Your task to perform on an android device: What's the latest news in astronomy? Image 0: 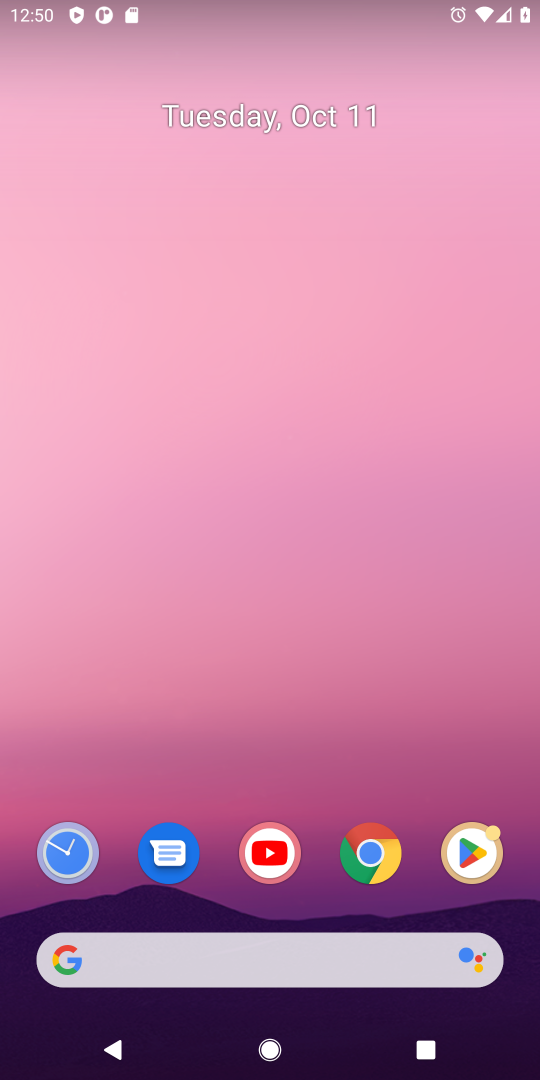
Step 0: drag from (240, 694) to (221, 15)
Your task to perform on an android device: What's the latest news in astronomy? Image 1: 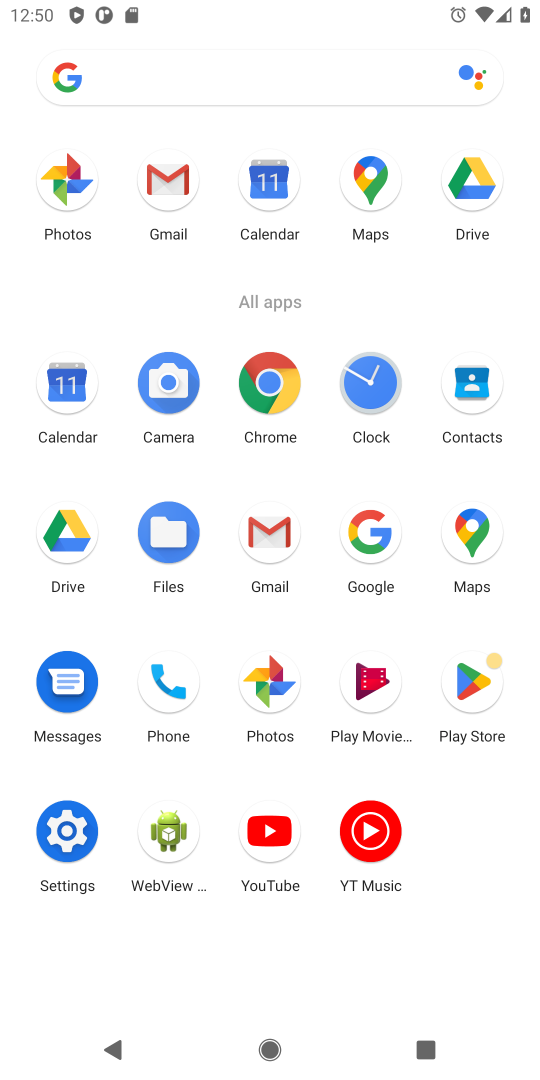
Step 1: click (263, 404)
Your task to perform on an android device: What's the latest news in astronomy? Image 2: 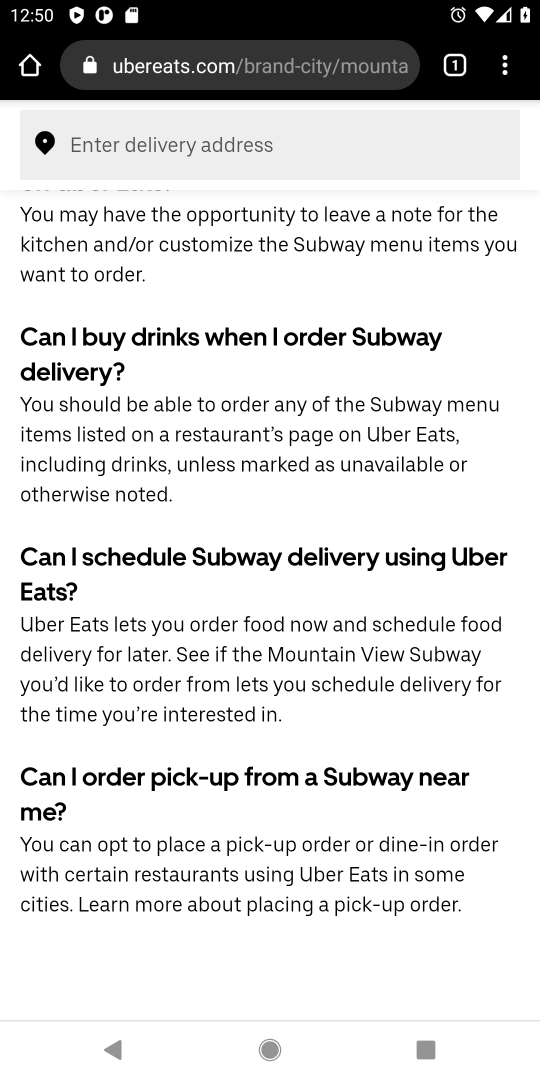
Step 2: click (230, 49)
Your task to perform on an android device: What's the latest news in astronomy? Image 3: 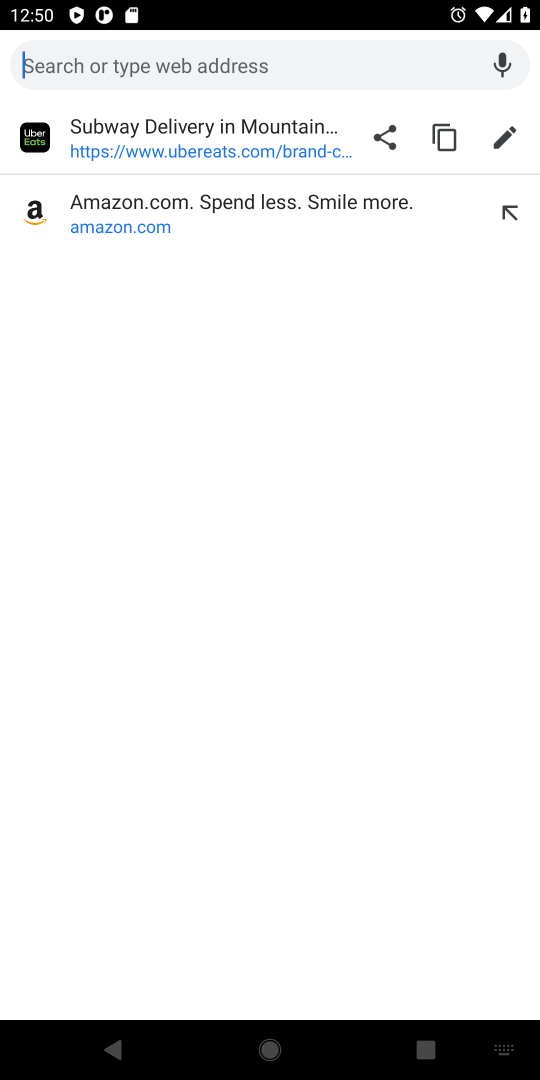
Step 3: type "What's the latest news in astronomy?"
Your task to perform on an android device: What's the latest news in astronomy? Image 4: 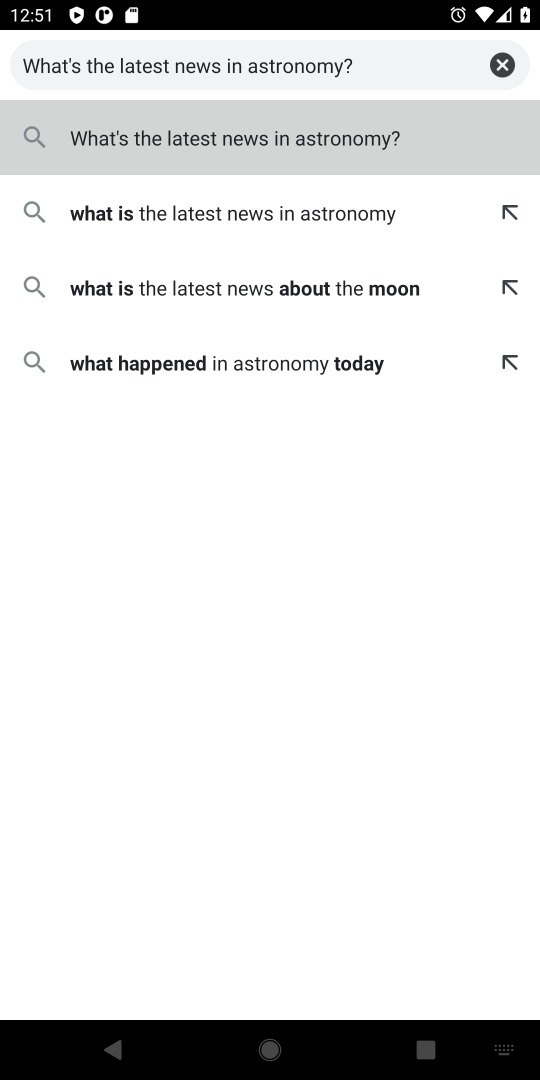
Step 4: type ""
Your task to perform on an android device: What's the latest news in astronomy? Image 5: 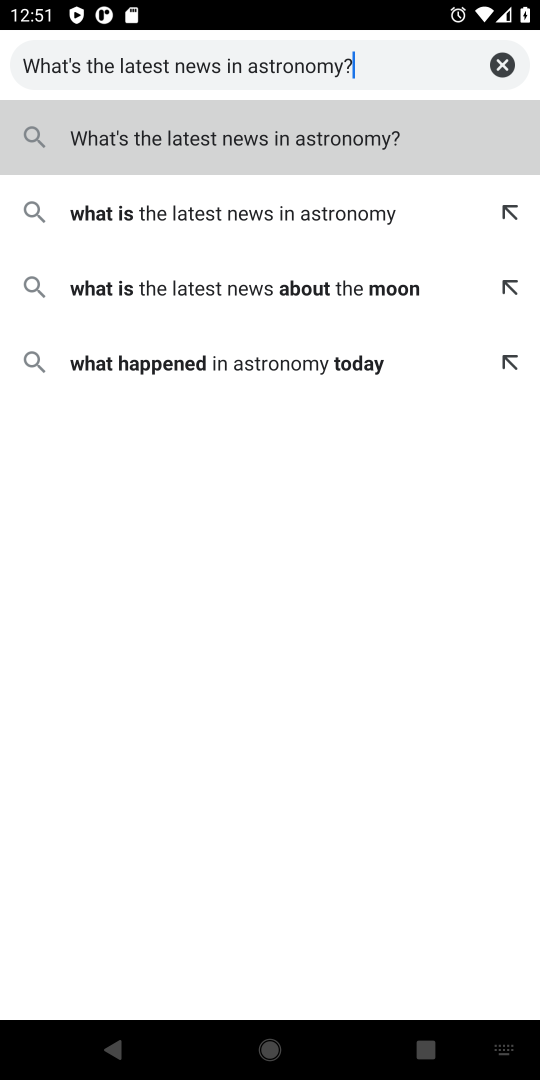
Step 5: press enter
Your task to perform on an android device: What's the latest news in astronomy? Image 6: 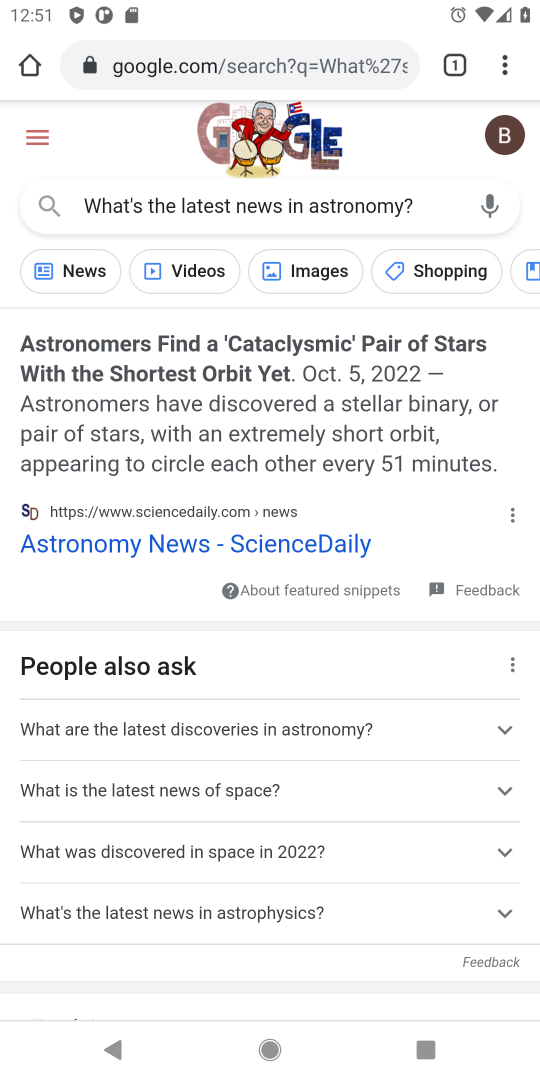
Step 6: click (85, 531)
Your task to perform on an android device: What's the latest news in astronomy? Image 7: 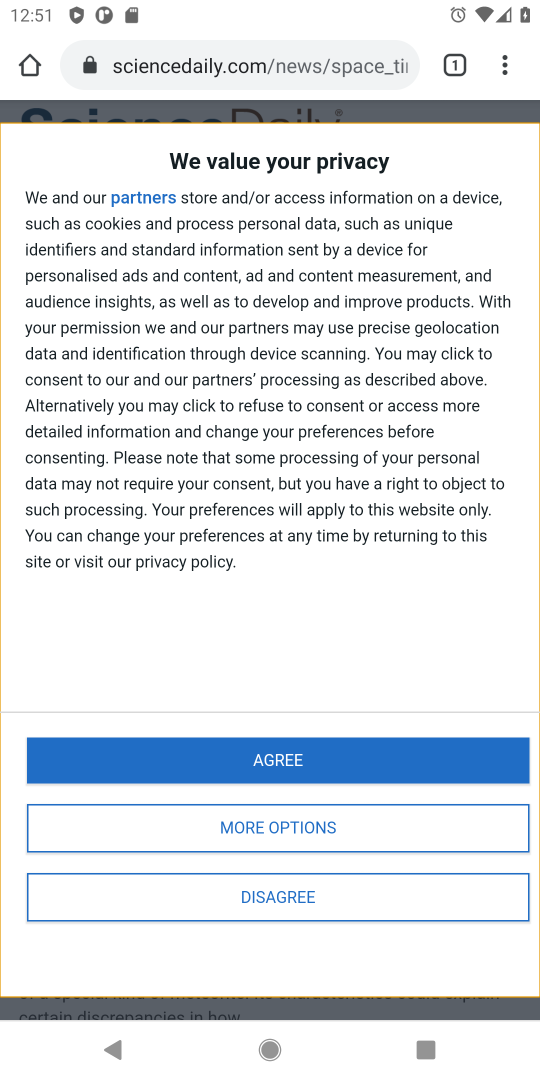
Step 7: drag from (183, 855) to (187, 157)
Your task to perform on an android device: What's the latest news in astronomy? Image 8: 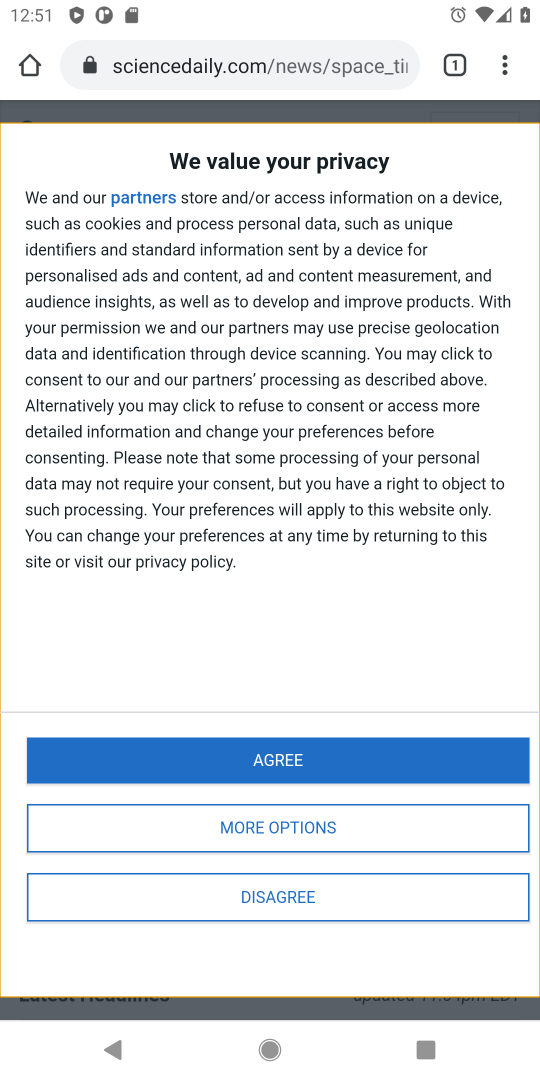
Step 8: click (287, 782)
Your task to perform on an android device: What's the latest news in astronomy? Image 9: 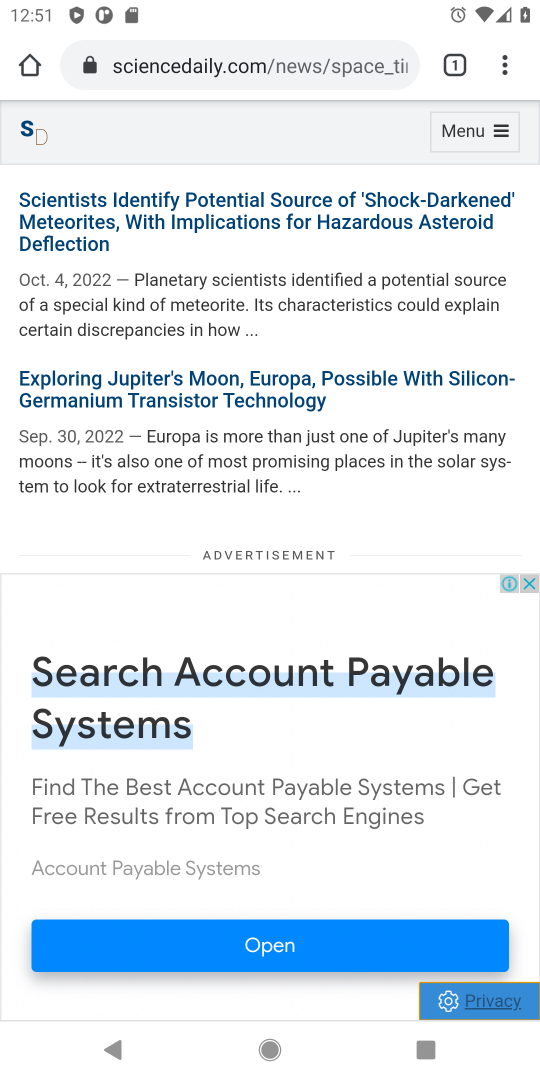
Step 9: drag from (238, 923) to (262, 203)
Your task to perform on an android device: What's the latest news in astronomy? Image 10: 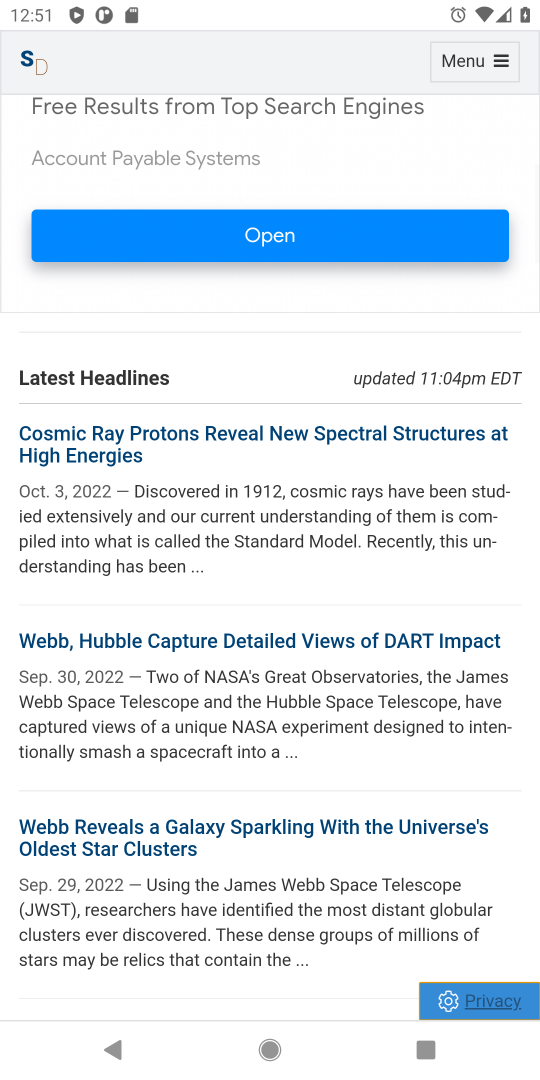
Step 10: drag from (363, 675) to (342, 70)
Your task to perform on an android device: What's the latest news in astronomy? Image 11: 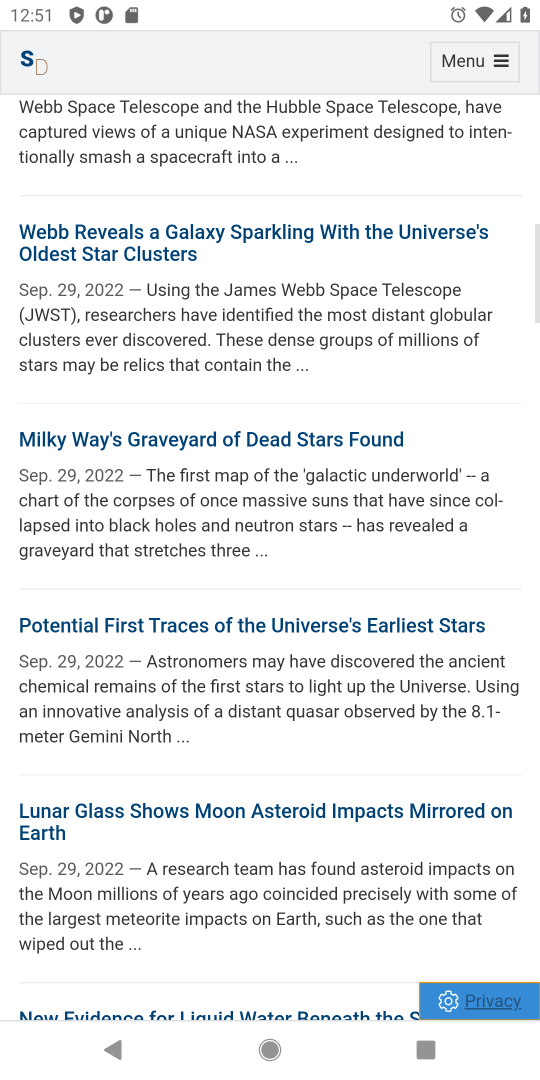
Step 11: drag from (422, 474) to (501, 26)
Your task to perform on an android device: What's the latest news in astronomy? Image 12: 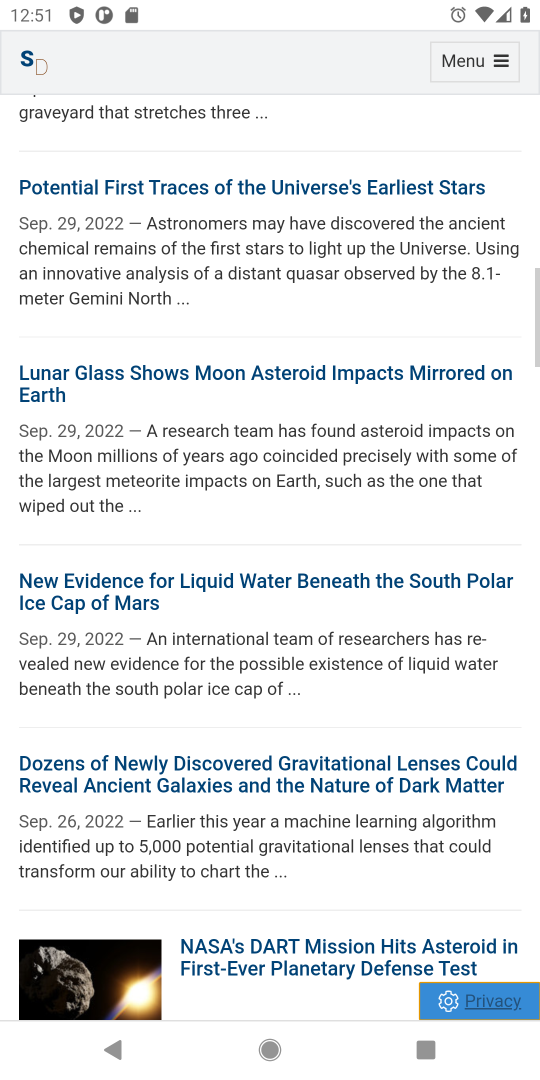
Step 12: drag from (328, 776) to (328, 63)
Your task to perform on an android device: What's the latest news in astronomy? Image 13: 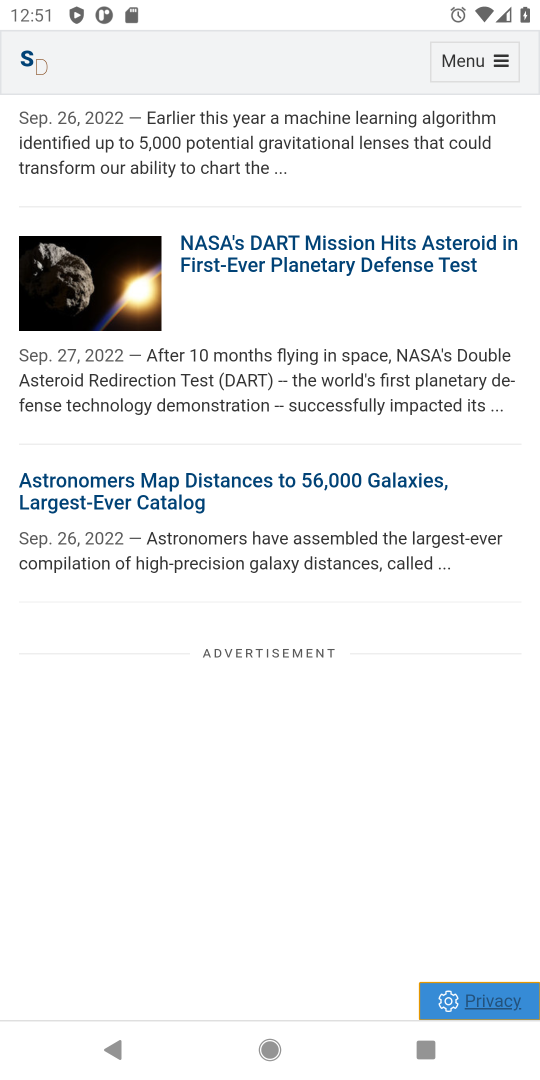
Step 13: drag from (427, 761) to (438, 167)
Your task to perform on an android device: What's the latest news in astronomy? Image 14: 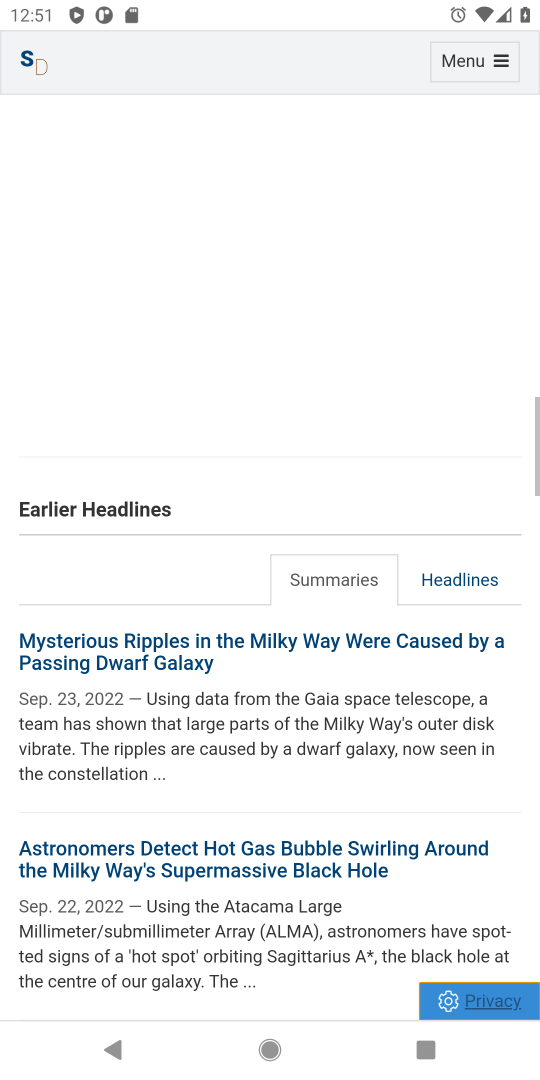
Step 14: drag from (428, 752) to (401, 139)
Your task to perform on an android device: What's the latest news in astronomy? Image 15: 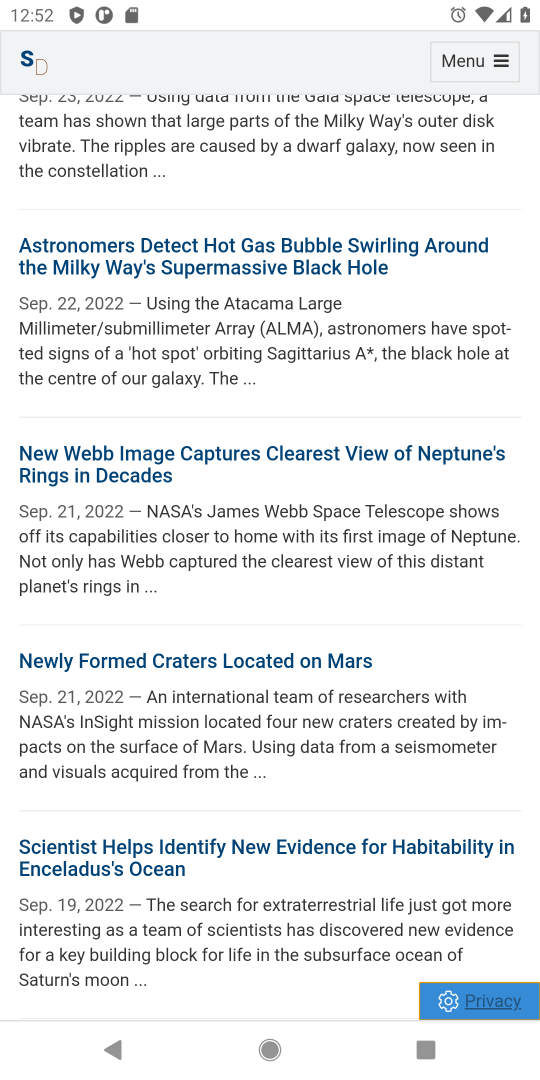
Step 15: drag from (423, 615) to (474, 53)
Your task to perform on an android device: What's the latest news in astronomy? Image 16: 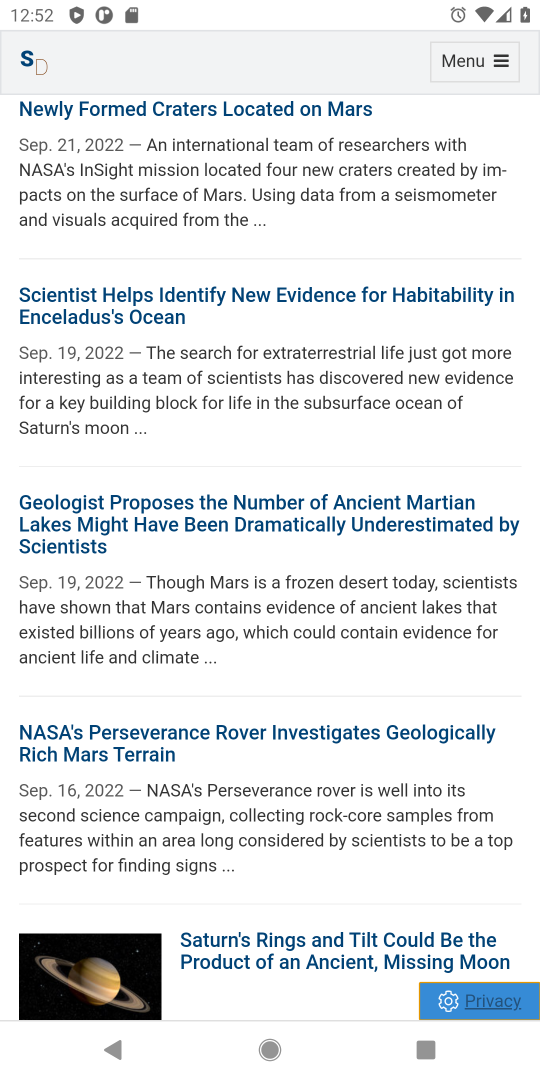
Step 16: drag from (390, 910) to (402, 271)
Your task to perform on an android device: What's the latest news in astronomy? Image 17: 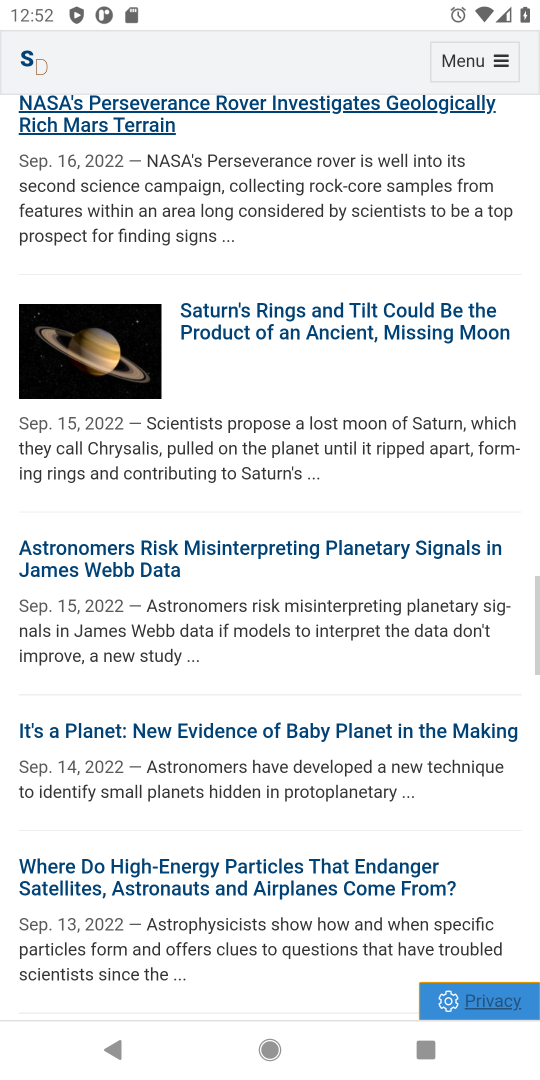
Step 17: drag from (436, 833) to (459, 368)
Your task to perform on an android device: What's the latest news in astronomy? Image 18: 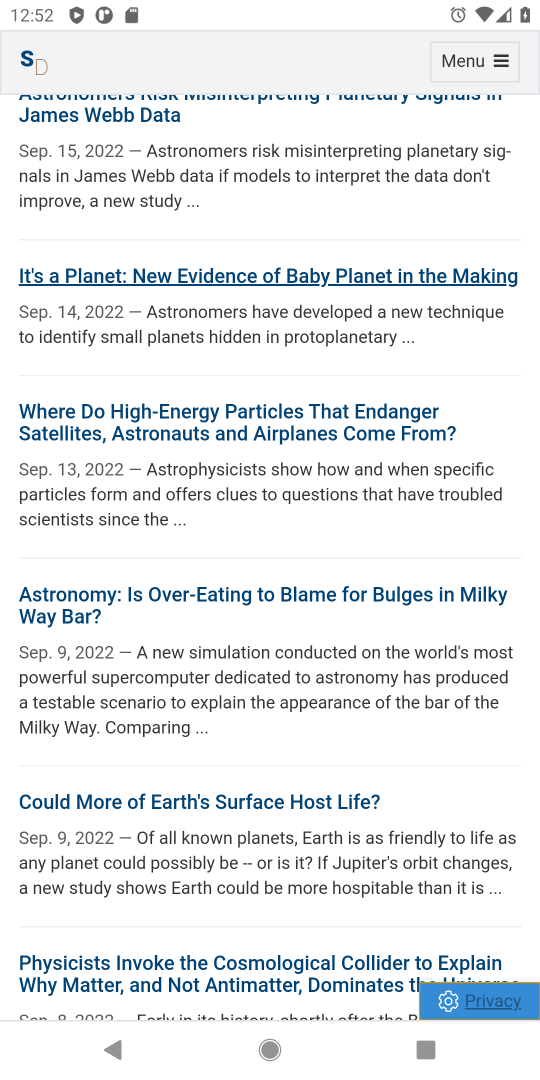
Step 18: drag from (518, 784) to (531, 305)
Your task to perform on an android device: What's the latest news in astronomy? Image 19: 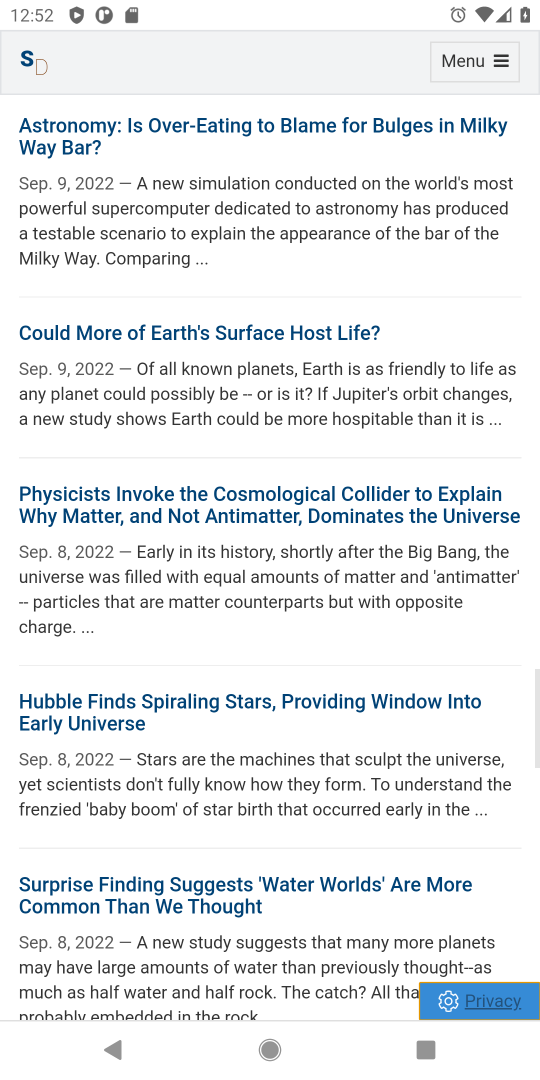
Step 19: drag from (529, 780) to (487, 203)
Your task to perform on an android device: What's the latest news in astronomy? Image 20: 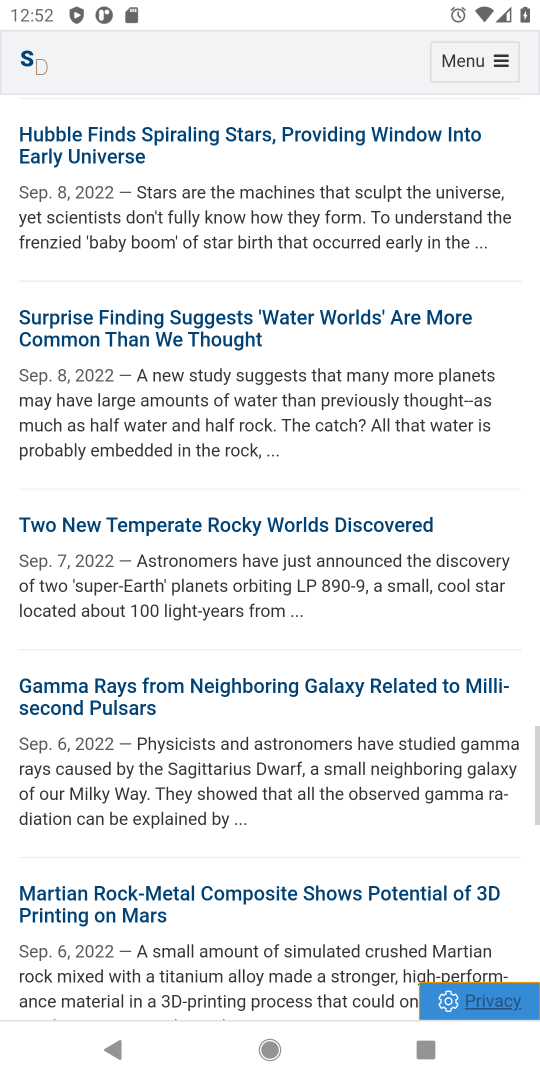
Step 20: drag from (397, 743) to (397, 239)
Your task to perform on an android device: What's the latest news in astronomy? Image 21: 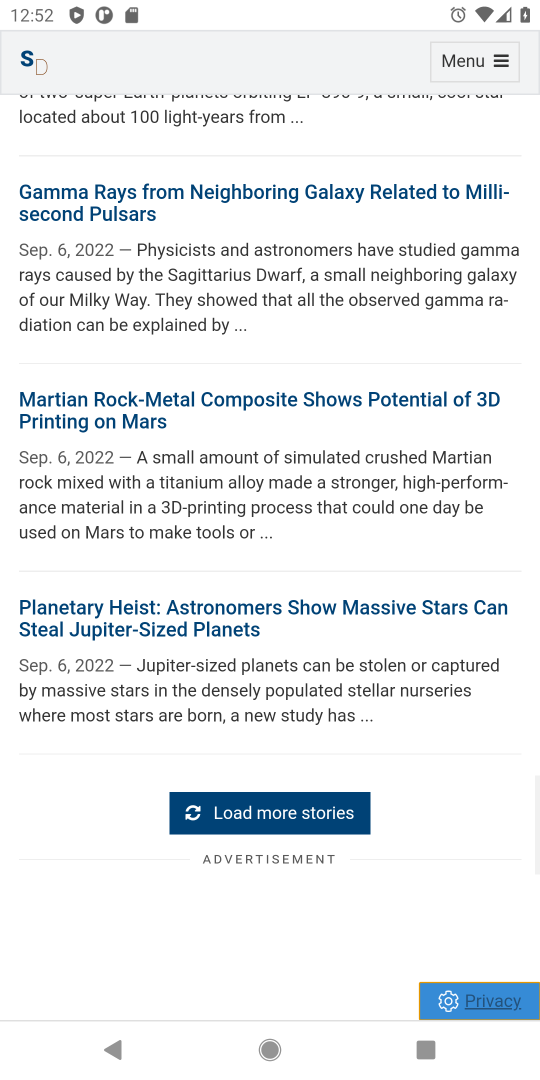
Step 21: drag from (355, 811) to (359, 286)
Your task to perform on an android device: What's the latest news in astronomy? Image 22: 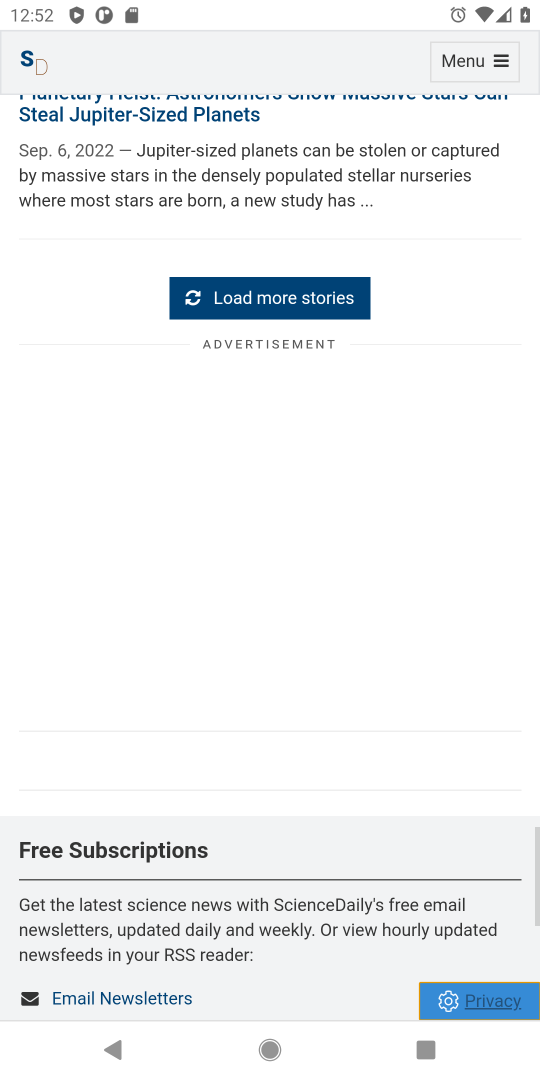
Step 22: drag from (344, 820) to (333, 130)
Your task to perform on an android device: What's the latest news in astronomy? Image 23: 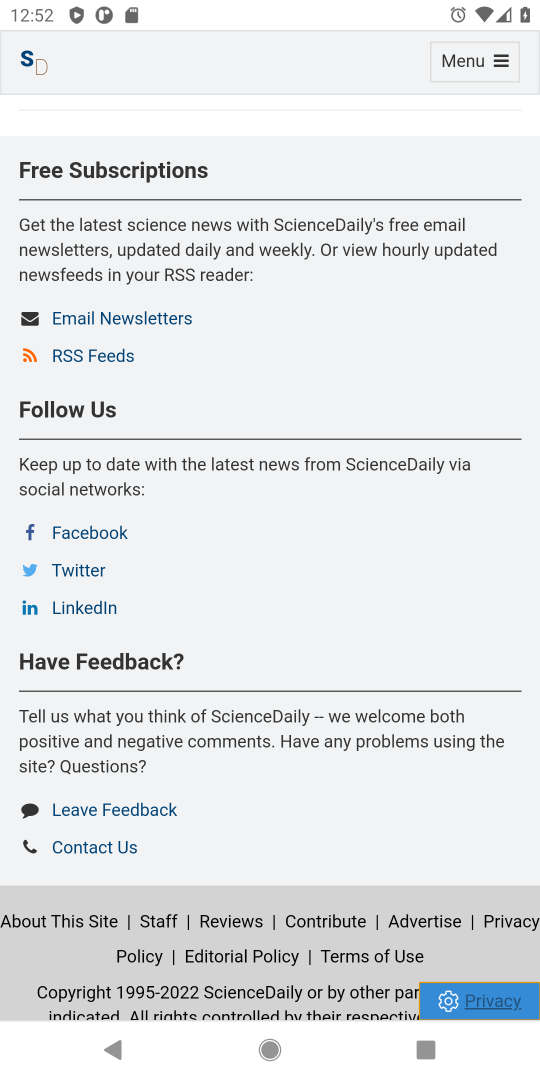
Step 23: drag from (306, 895) to (325, 110)
Your task to perform on an android device: What's the latest news in astronomy? Image 24: 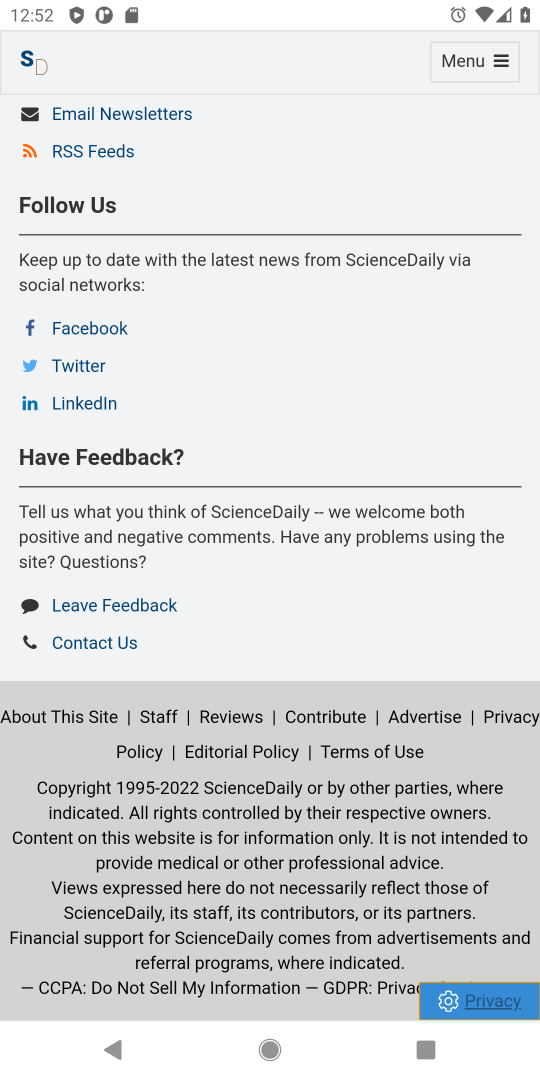
Step 24: drag from (347, 815) to (381, 305)
Your task to perform on an android device: What's the latest news in astronomy? Image 25: 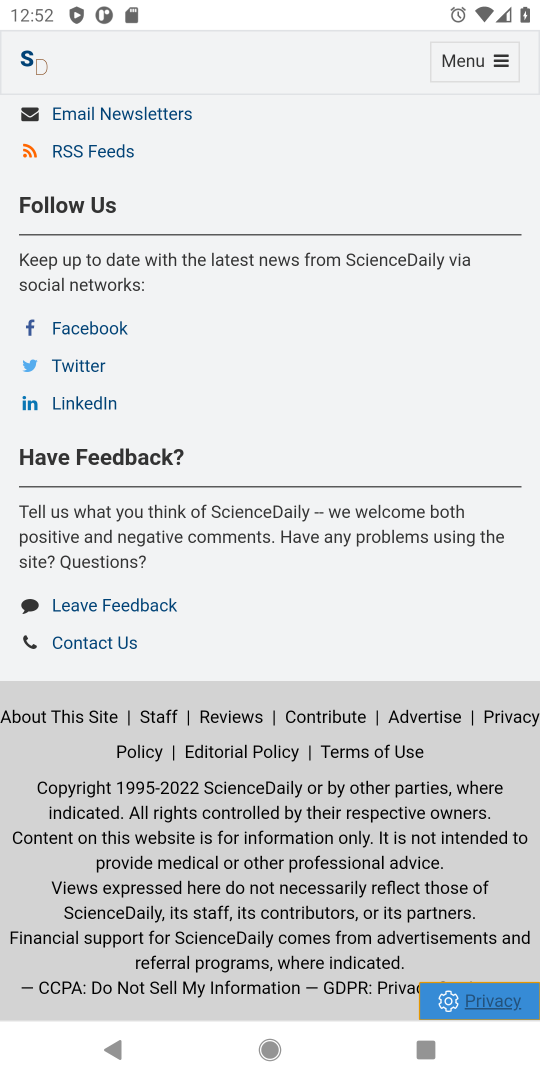
Step 25: press back button
Your task to perform on an android device: What's the latest news in astronomy? Image 26: 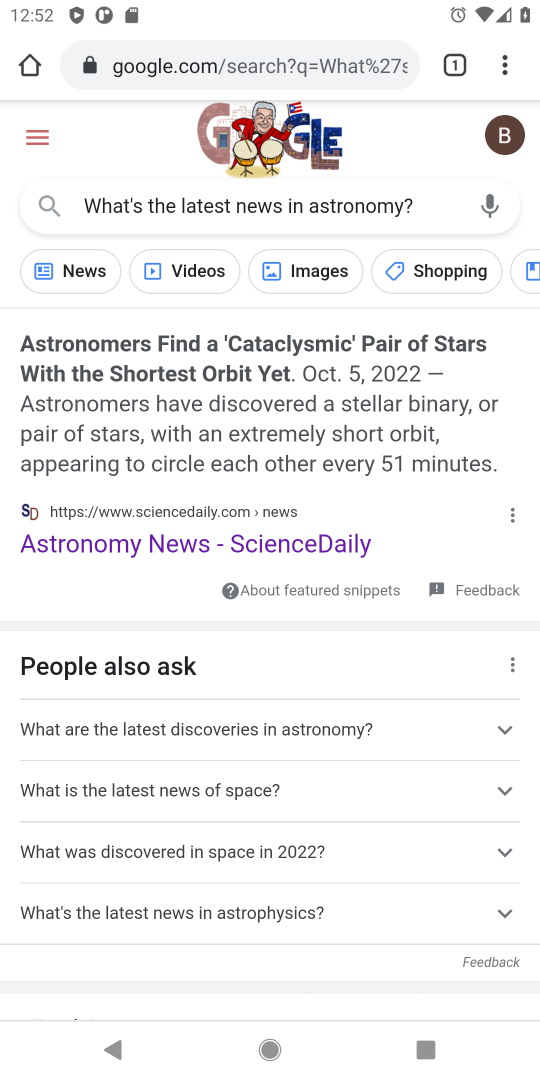
Step 26: drag from (264, 891) to (314, 526)
Your task to perform on an android device: What's the latest news in astronomy? Image 27: 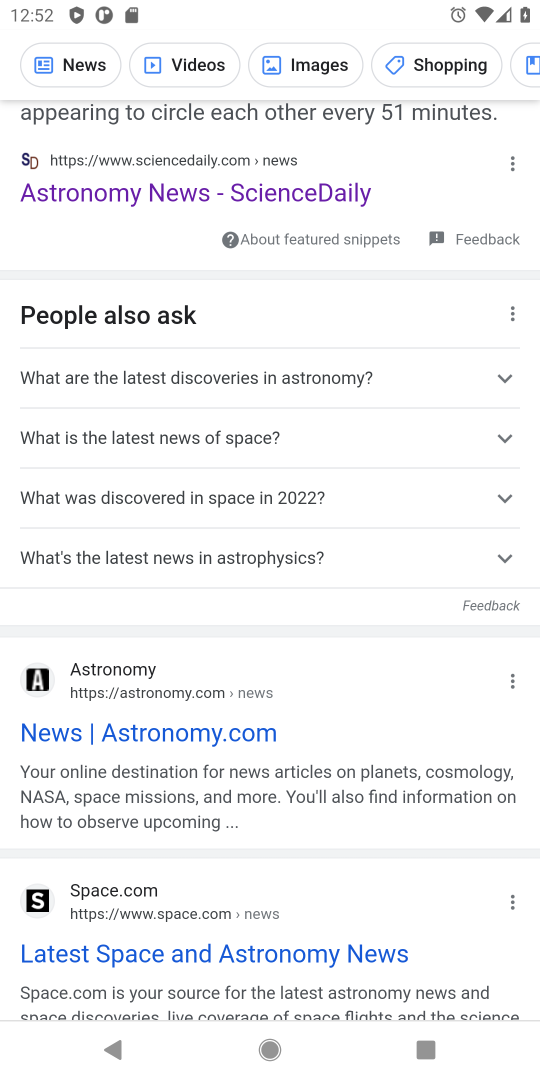
Step 27: click (155, 726)
Your task to perform on an android device: What's the latest news in astronomy? Image 28: 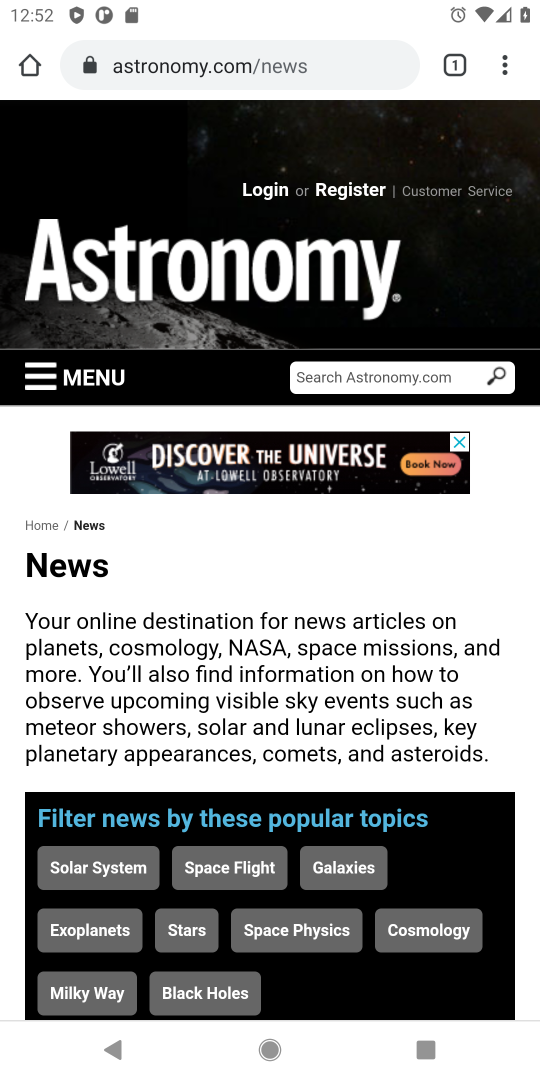
Step 28: drag from (251, 844) to (248, 273)
Your task to perform on an android device: What's the latest news in astronomy? Image 29: 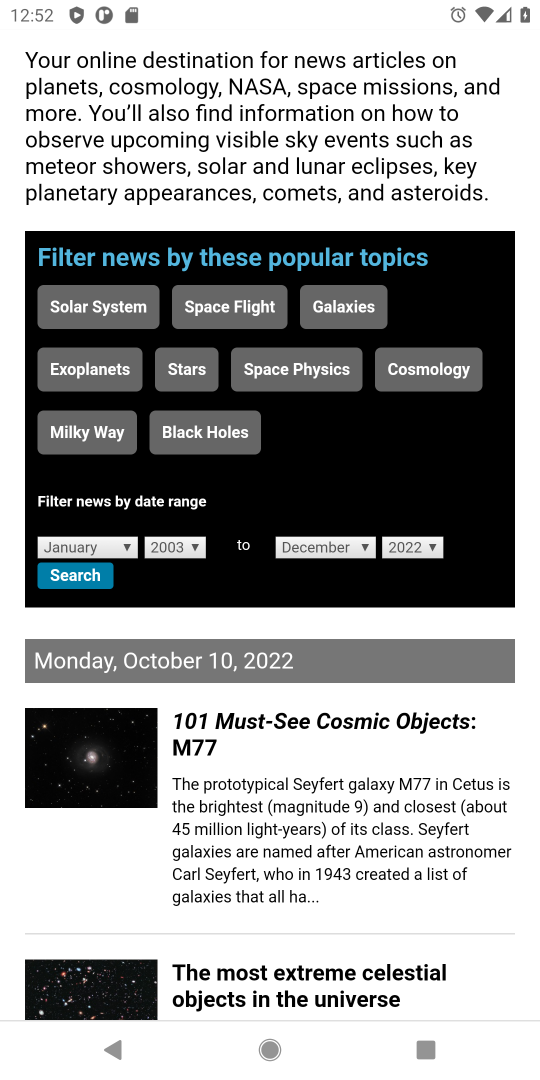
Step 29: drag from (257, 833) to (325, 232)
Your task to perform on an android device: What's the latest news in astronomy? Image 30: 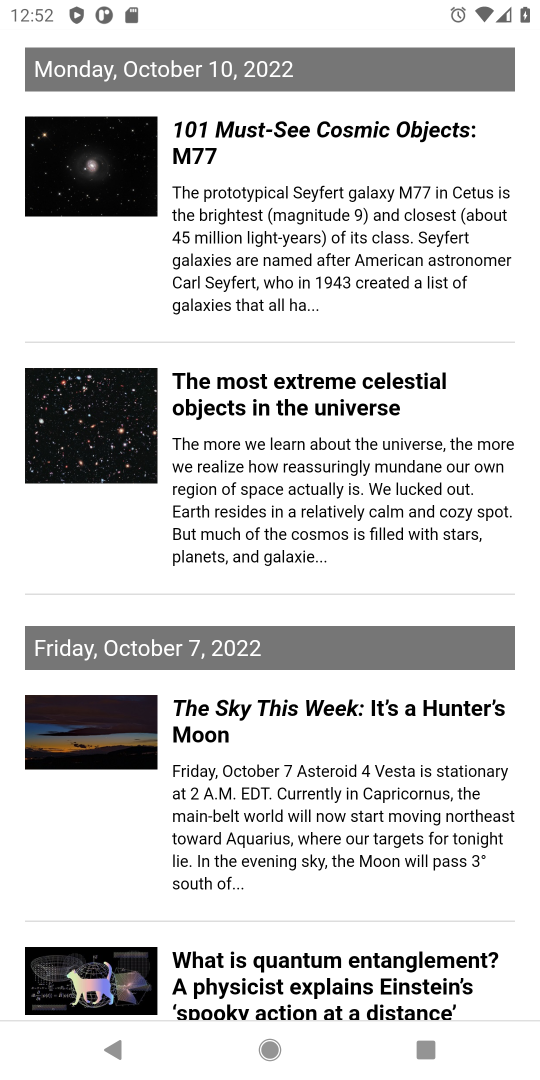
Step 30: drag from (341, 872) to (372, 195)
Your task to perform on an android device: What's the latest news in astronomy? Image 31: 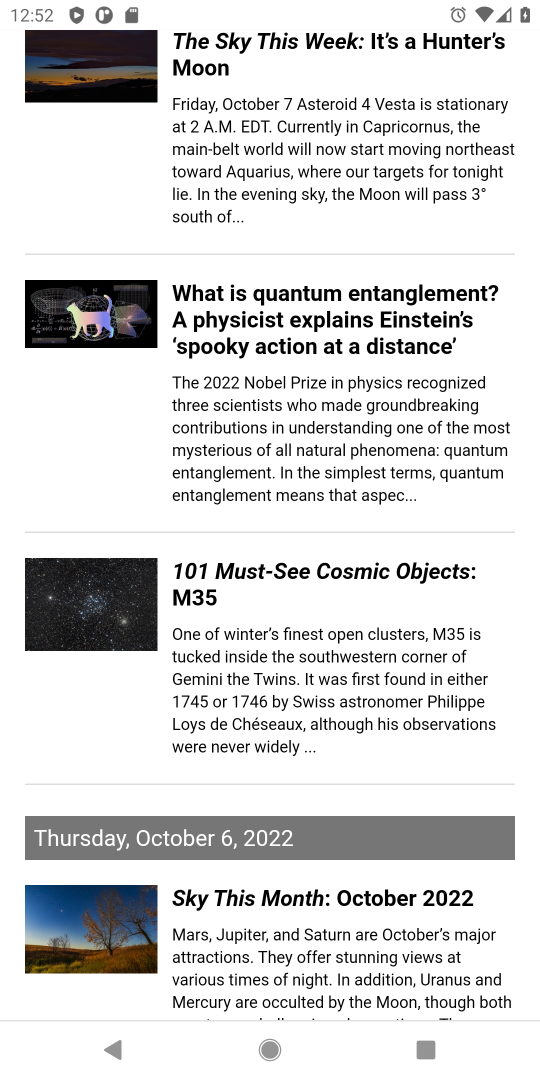
Step 31: drag from (314, 705) to (374, 89)
Your task to perform on an android device: What's the latest news in astronomy? Image 32: 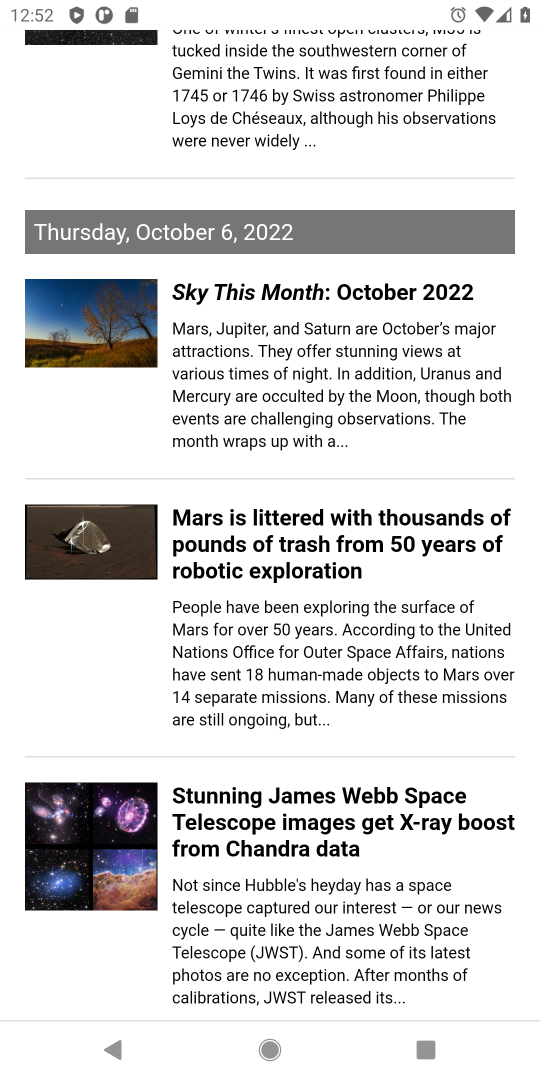
Step 32: drag from (375, 714) to (422, 205)
Your task to perform on an android device: What's the latest news in astronomy? Image 33: 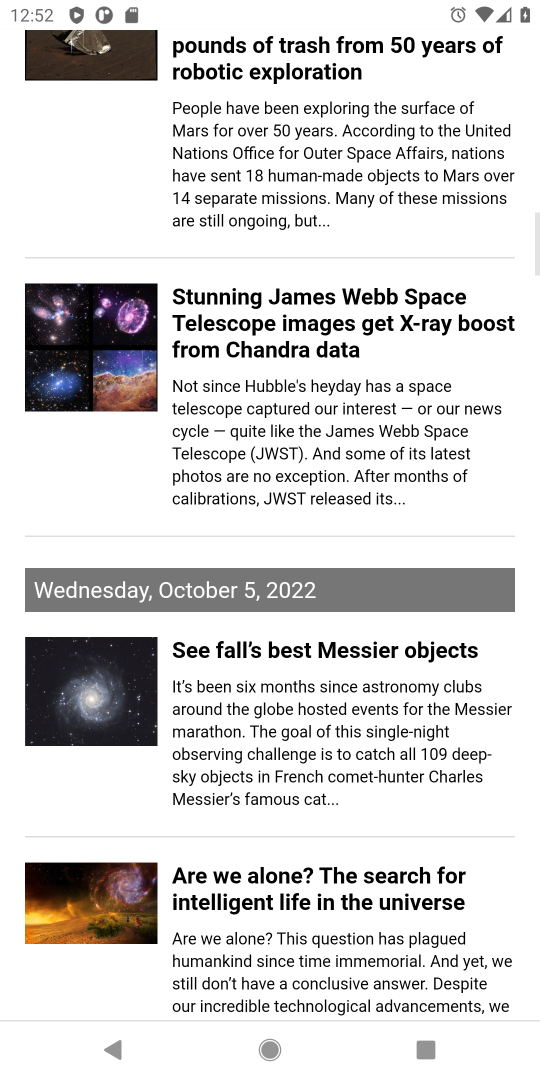
Step 33: drag from (337, 733) to (305, 206)
Your task to perform on an android device: What's the latest news in astronomy? Image 34: 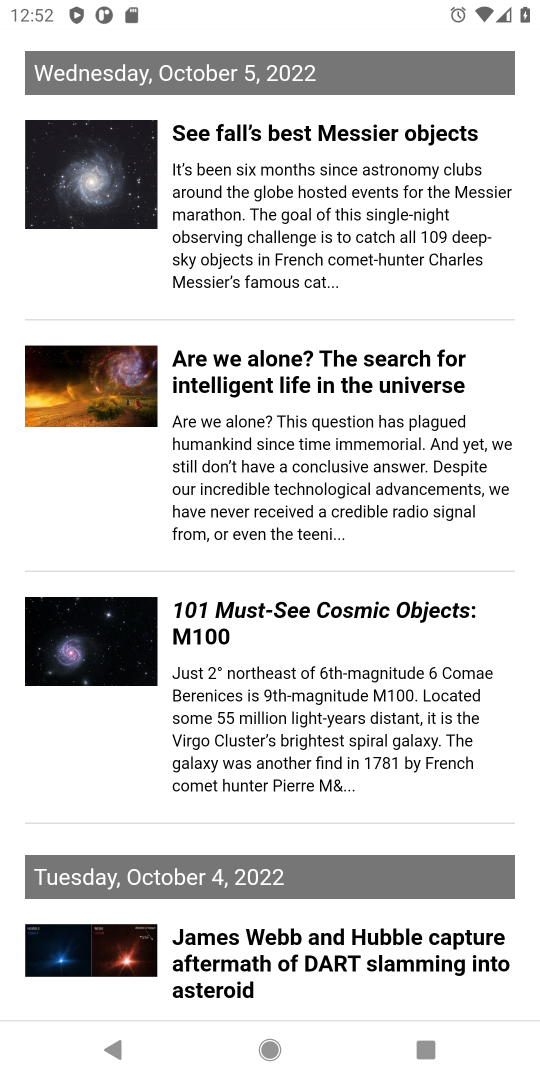
Step 34: drag from (322, 777) to (356, 147)
Your task to perform on an android device: What's the latest news in astronomy? Image 35: 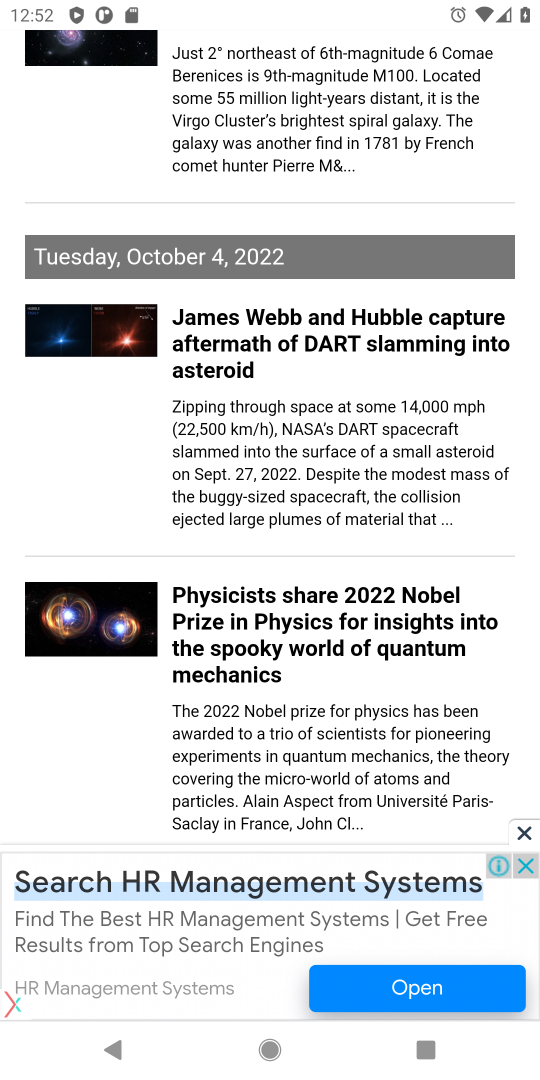
Step 35: drag from (440, 736) to (415, 295)
Your task to perform on an android device: What's the latest news in astronomy? Image 36: 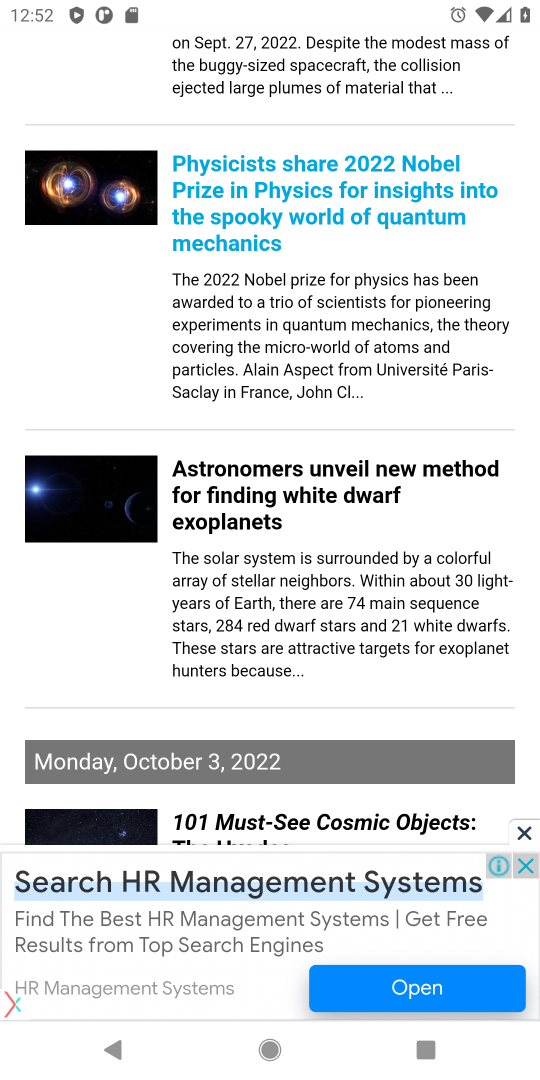
Step 36: drag from (375, 598) to (382, 146)
Your task to perform on an android device: What's the latest news in astronomy? Image 37: 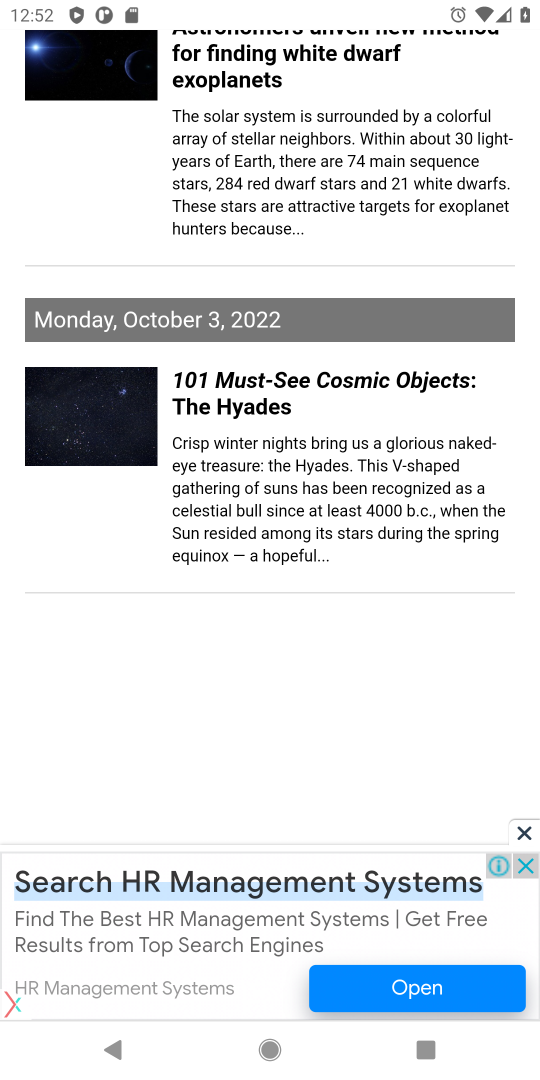
Step 37: drag from (324, 623) to (349, 298)
Your task to perform on an android device: What's the latest news in astronomy? Image 38: 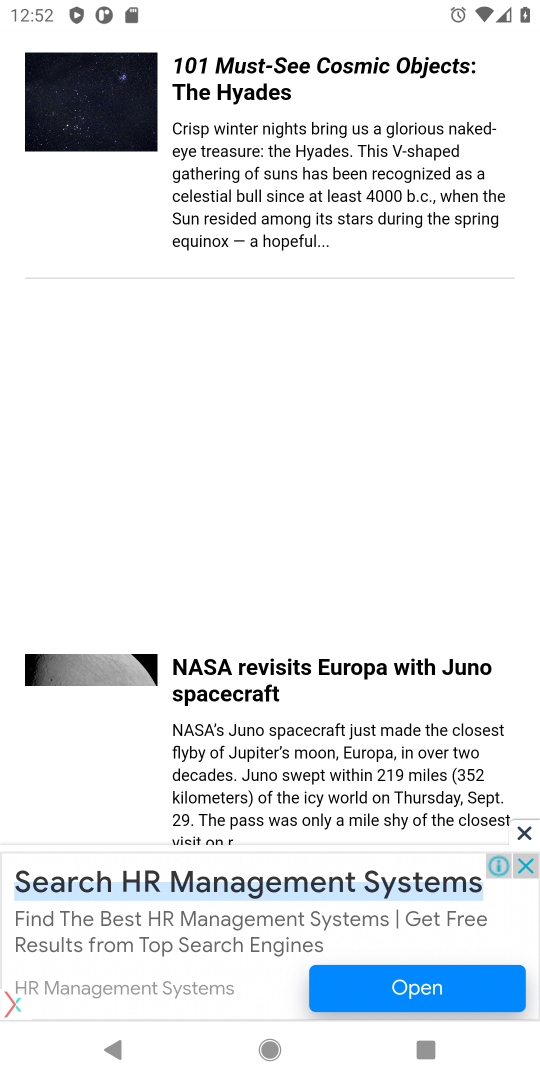
Step 38: press back button
Your task to perform on an android device: What's the latest news in astronomy? Image 39: 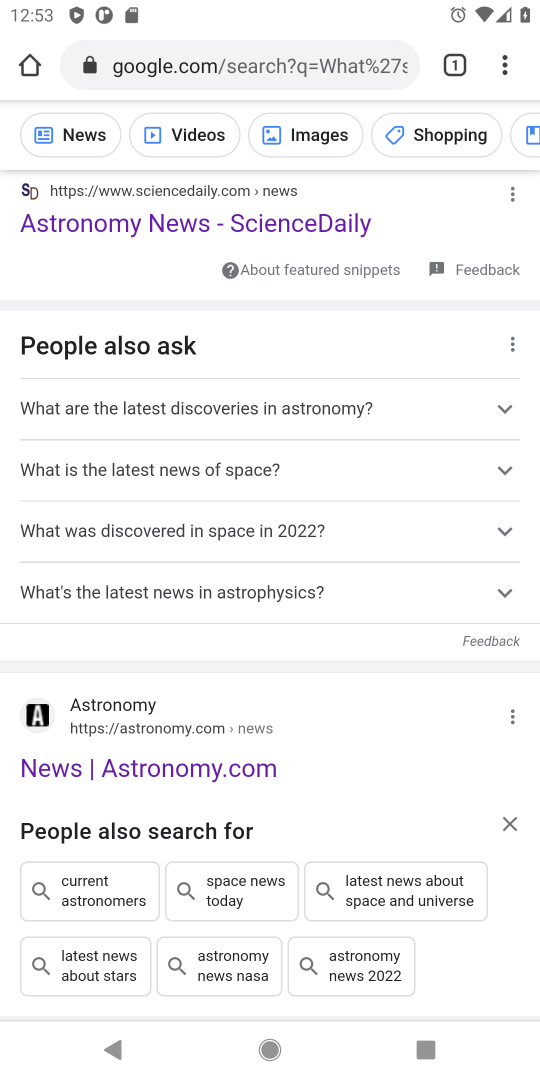
Step 39: drag from (221, 832) to (209, 403)
Your task to perform on an android device: What's the latest news in astronomy? Image 40: 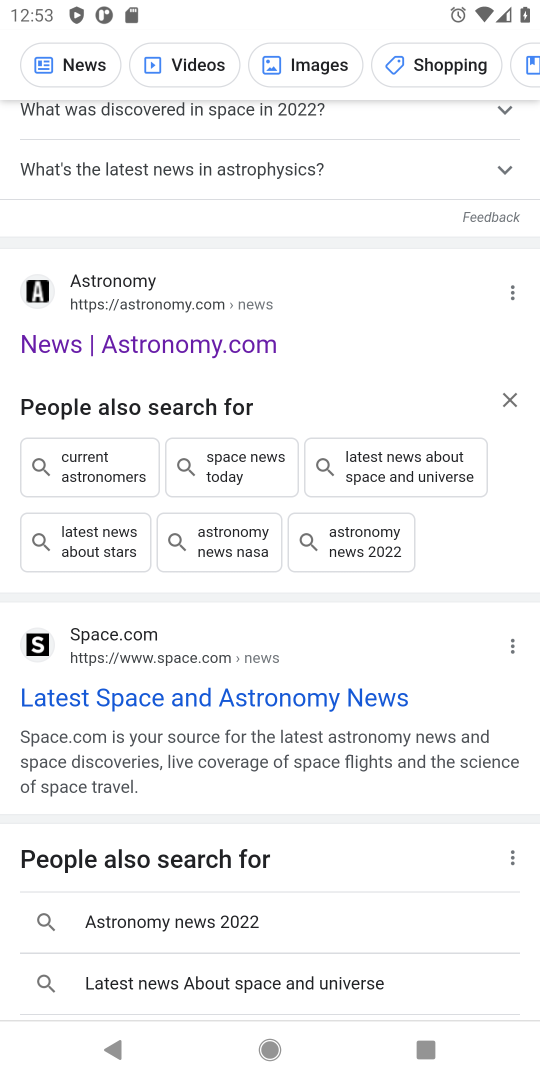
Step 40: click (145, 685)
Your task to perform on an android device: What's the latest news in astronomy? Image 41: 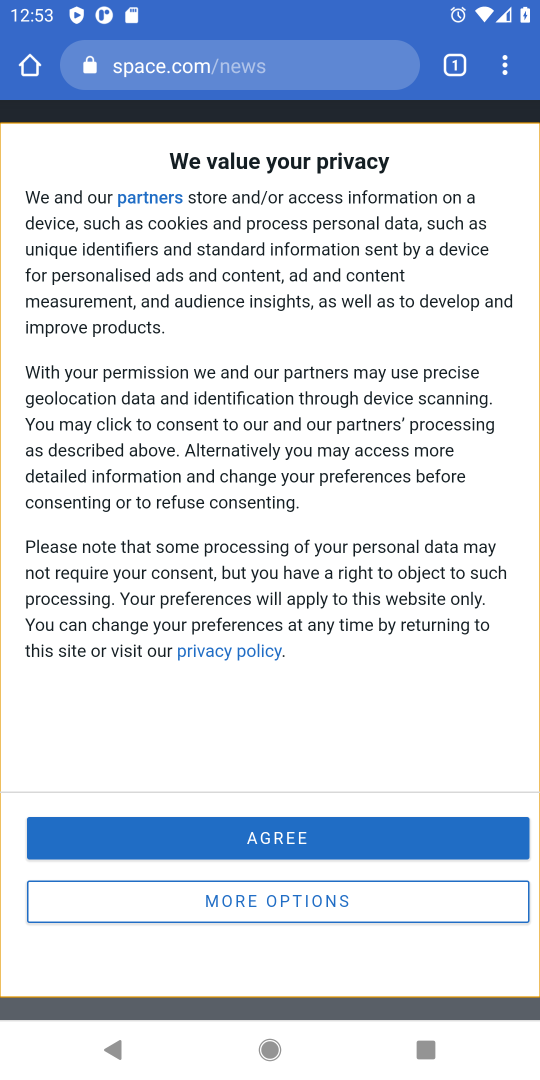
Step 41: click (202, 816)
Your task to perform on an android device: What's the latest news in astronomy? Image 42: 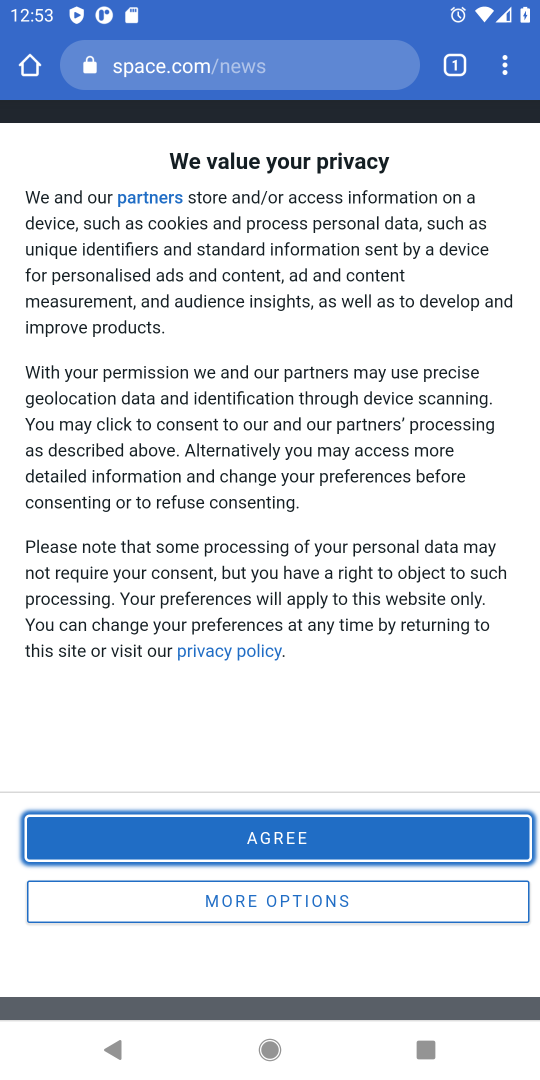
Step 42: click (242, 849)
Your task to perform on an android device: What's the latest news in astronomy? Image 43: 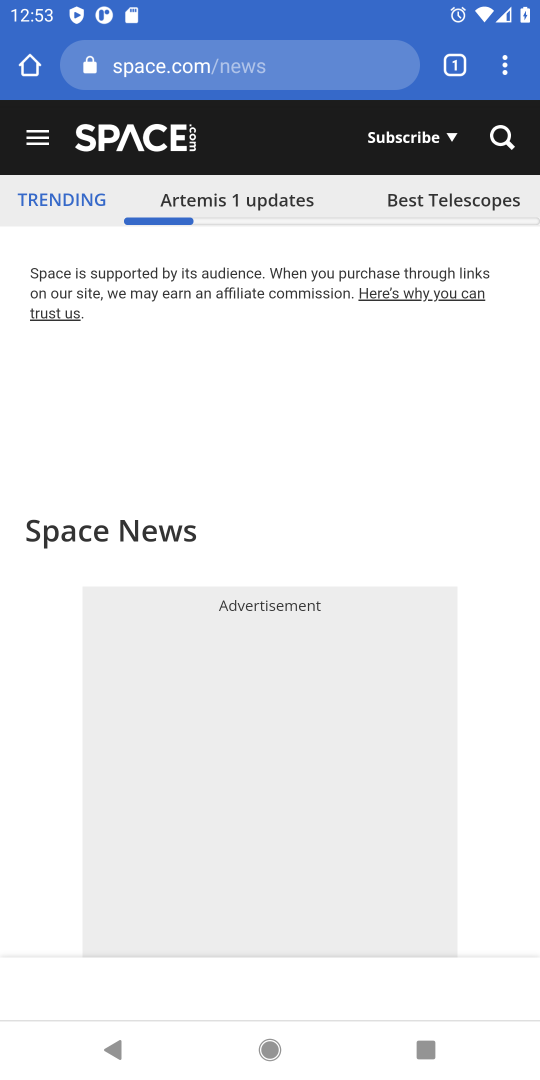
Step 43: drag from (242, 849) to (270, 223)
Your task to perform on an android device: What's the latest news in astronomy? Image 44: 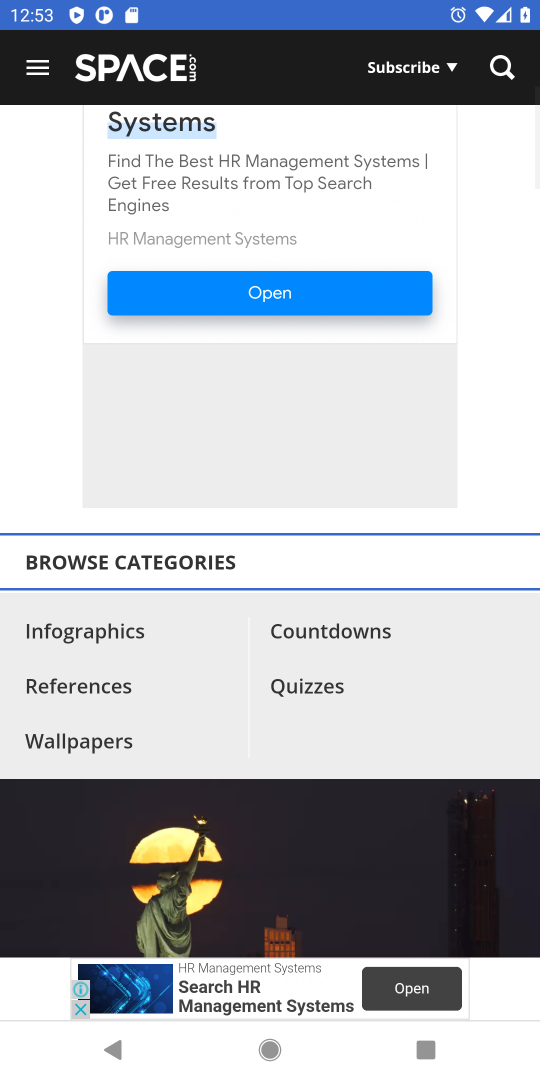
Step 44: drag from (293, 761) to (336, 145)
Your task to perform on an android device: What's the latest news in astronomy? Image 45: 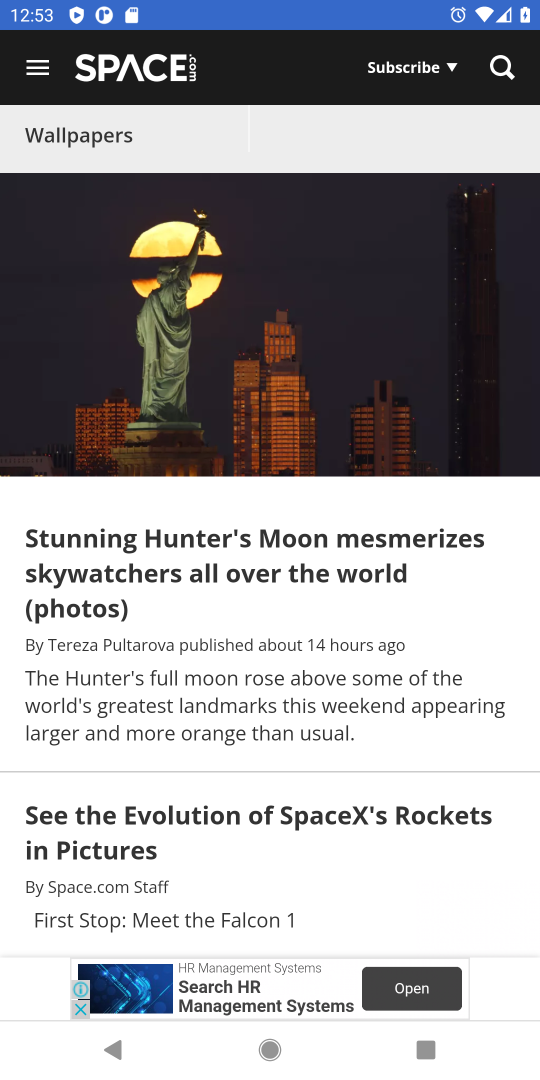
Step 45: drag from (237, 818) to (299, 359)
Your task to perform on an android device: What's the latest news in astronomy? Image 46: 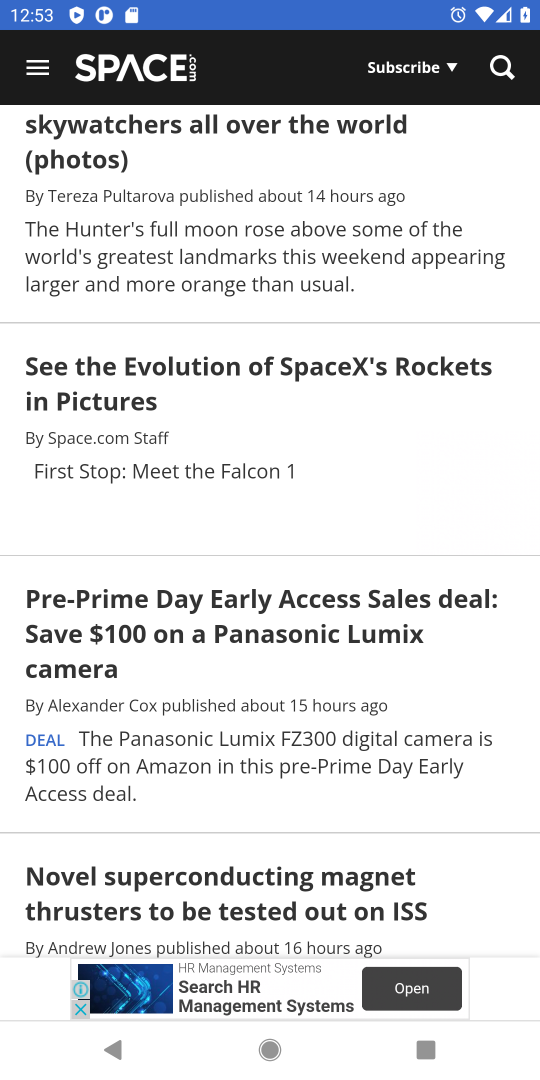
Step 46: drag from (290, 756) to (300, 279)
Your task to perform on an android device: What's the latest news in astronomy? Image 47: 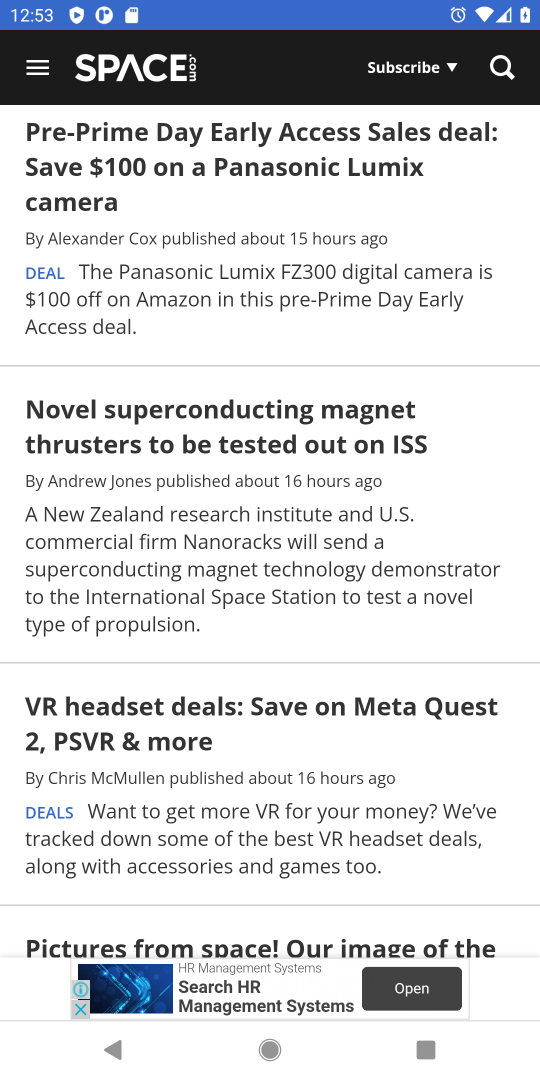
Step 47: drag from (276, 779) to (276, 234)
Your task to perform on an android device: What's the latest news in astronomy? Image 48: 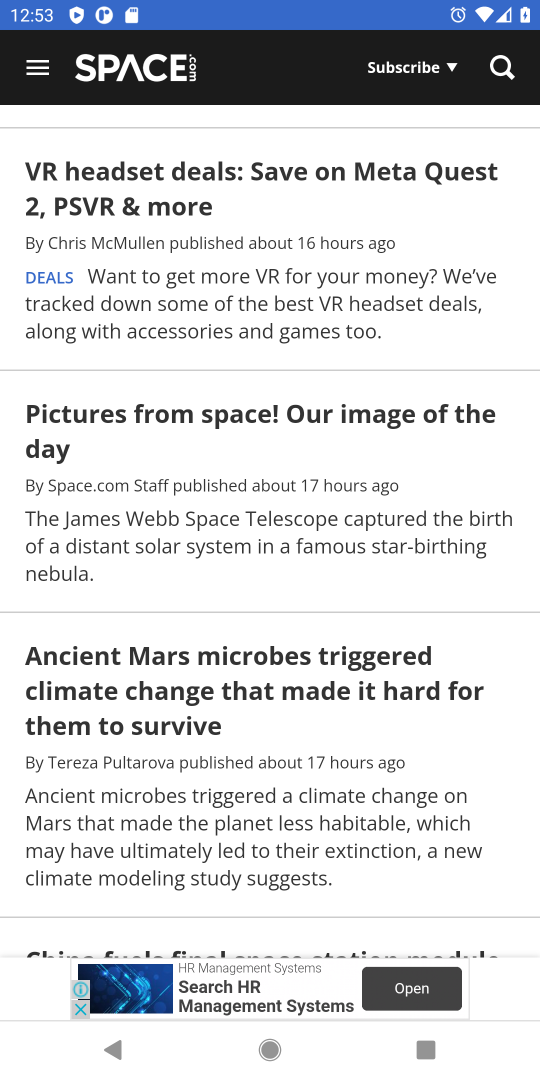
Step 48: drag from (256, 837) to (296, 218)
Your task to perform on an android device: What's the latest news in astronomy? Image 49: 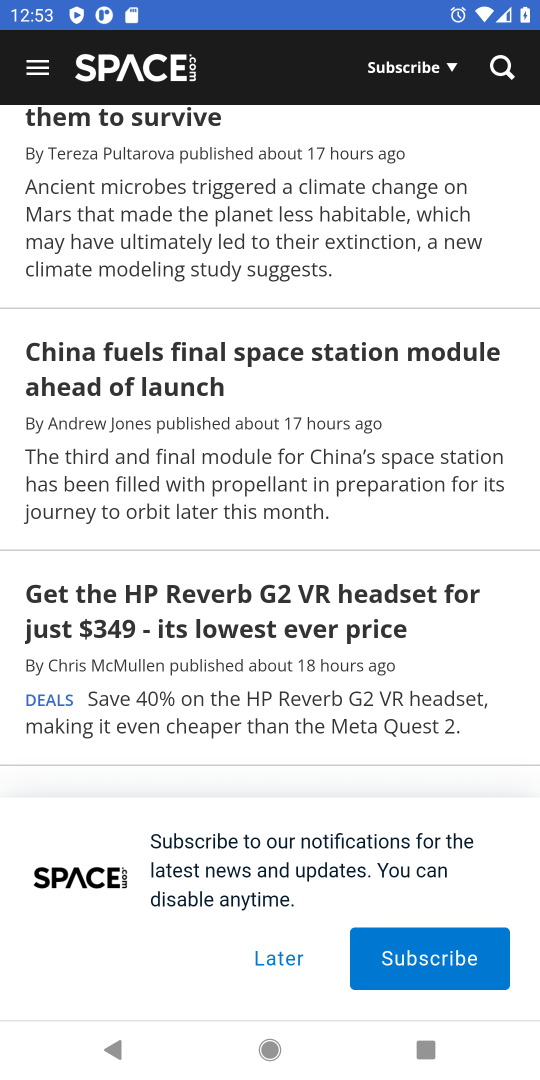
Step 49: drag from (262, 910) to (254, 306)
Your task to perform on an android device: What's the latest news in astronomy? Image 50: 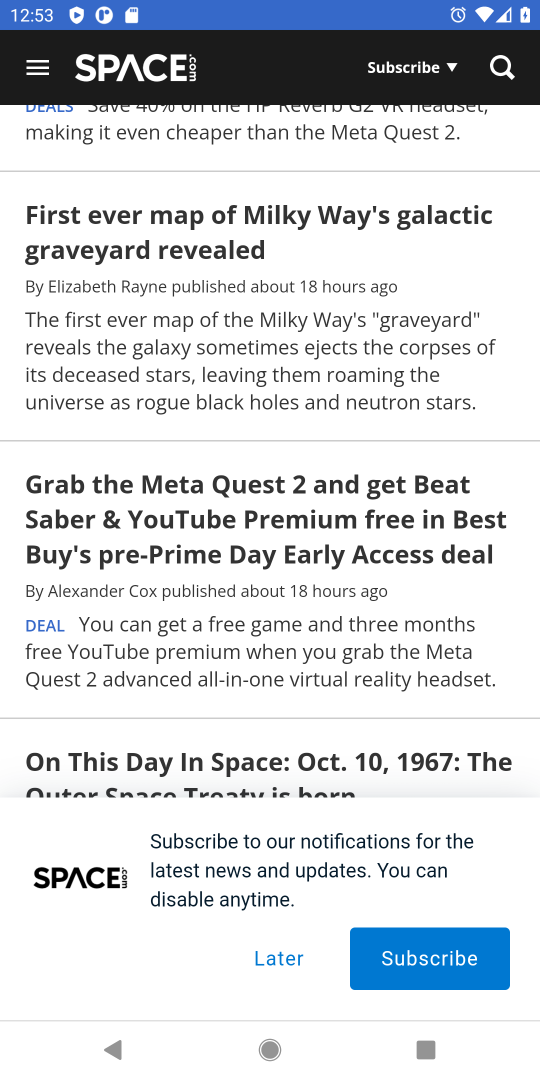
Step 50: click (286, 951)
Your task to perform on an android device: What's the latest news in astronomy? Image 51: 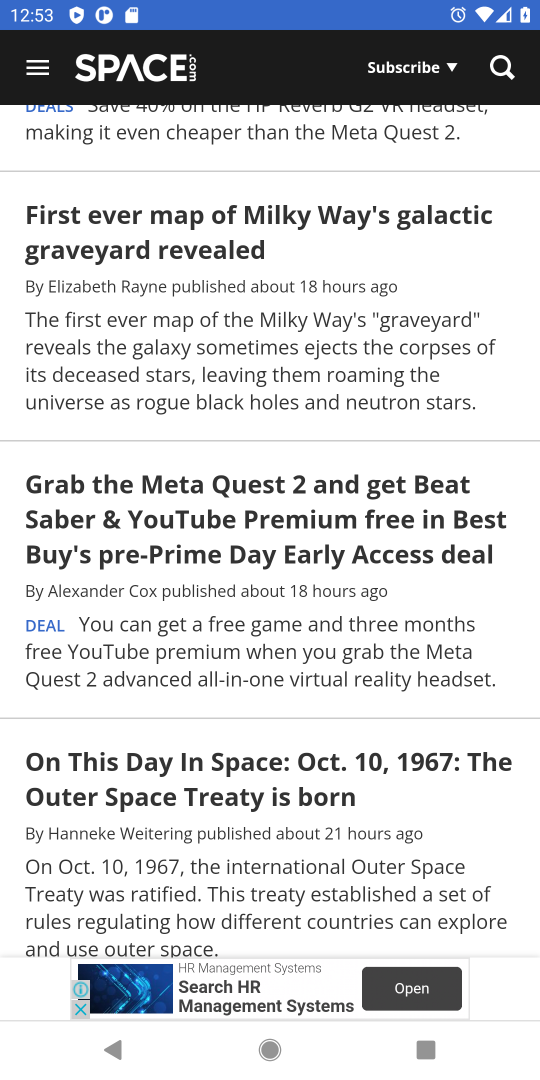
Step 51: drag from (300, 890) to (347, 376)
Your task to perform on an android device: What's the latest news in astronomy? Image 52: 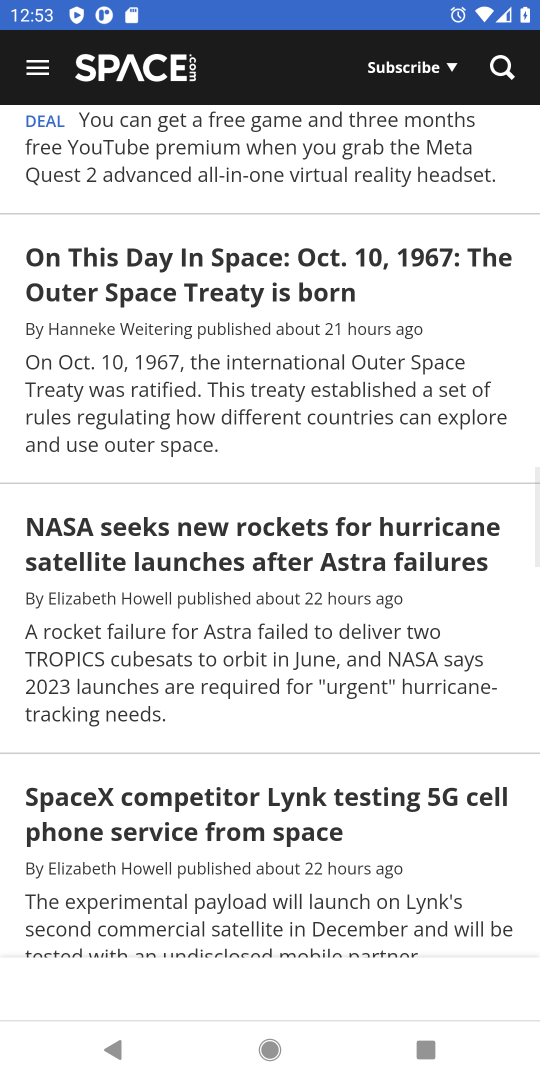
Step 52: drag from (318, 830) to (326, 380)
Your task to perform on an android device: What's the latest news in astronomy? Image 53: 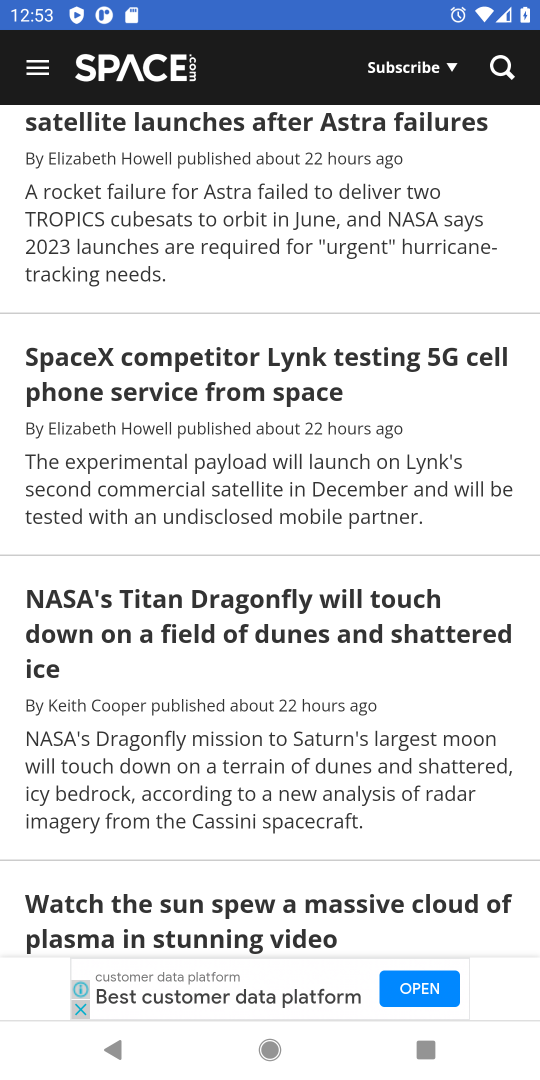
Step 53: drag from (307, 727) to (331, 349)
Your task to perform on an android device: What's the latest news in astronomy? Image 54: 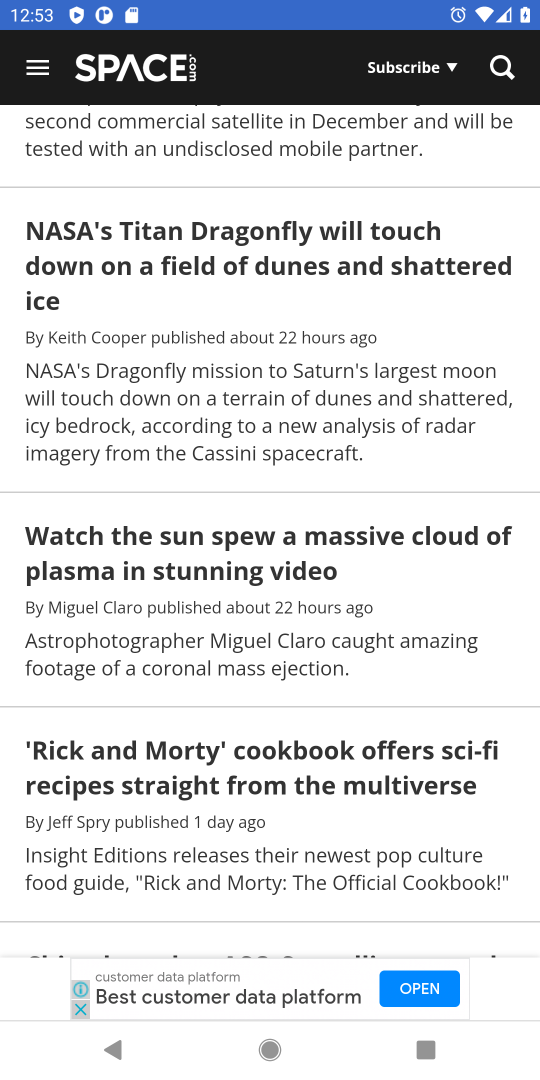
Step 54: drag from (297, 738) to (332, 359)
Your task to perform on an android device: What's the latest news in astronomy? Image 55: 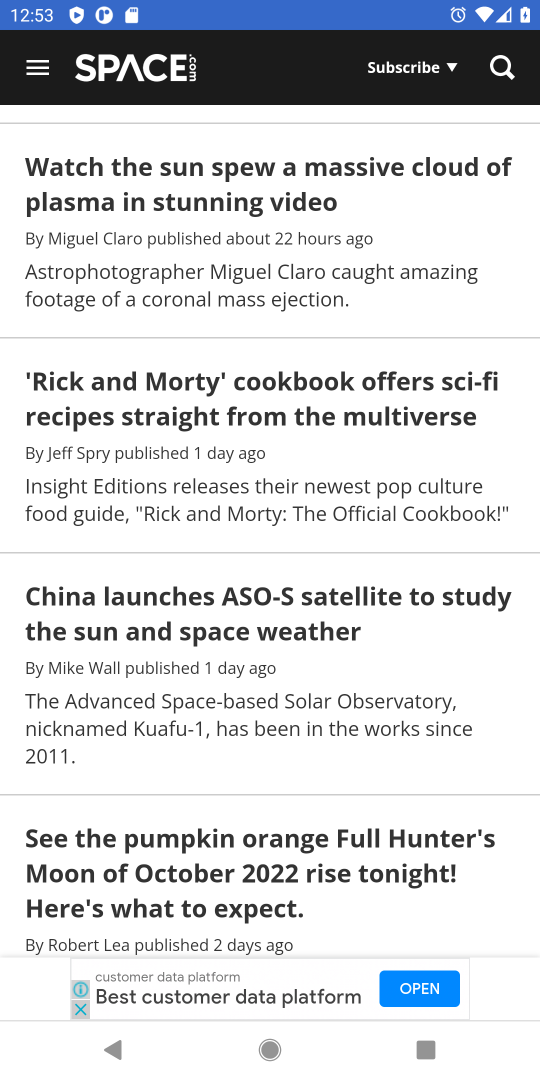
Step 55: drag from (299, 814) to (339, 234)
Your task to perform on an android device: What's the latest news in astronomy? Image 56: 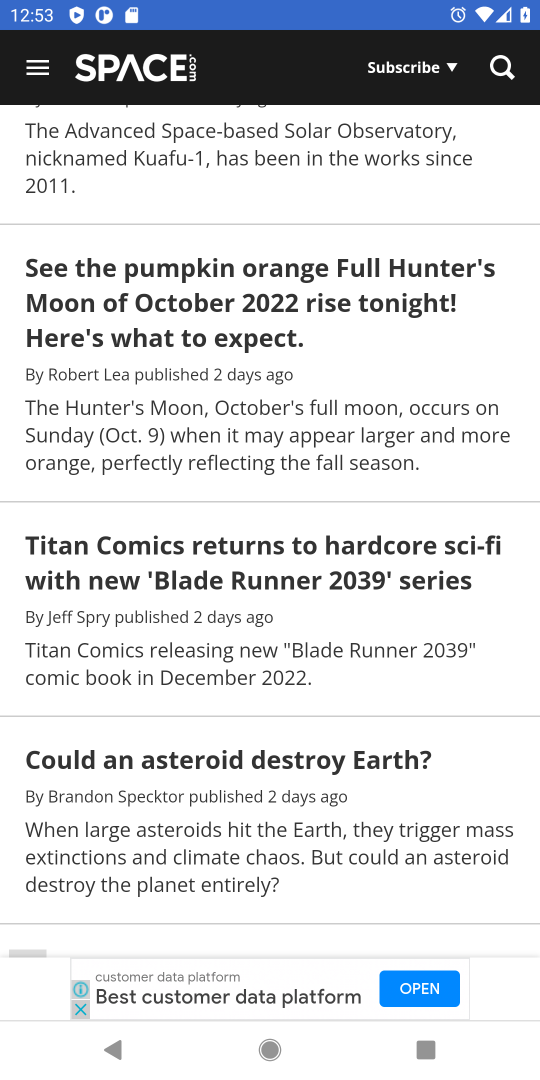
Step 56: drag from (414, 832) to (385, 309)
Your task to perform on an android device: What's the latest news in astronomy? Image 57: 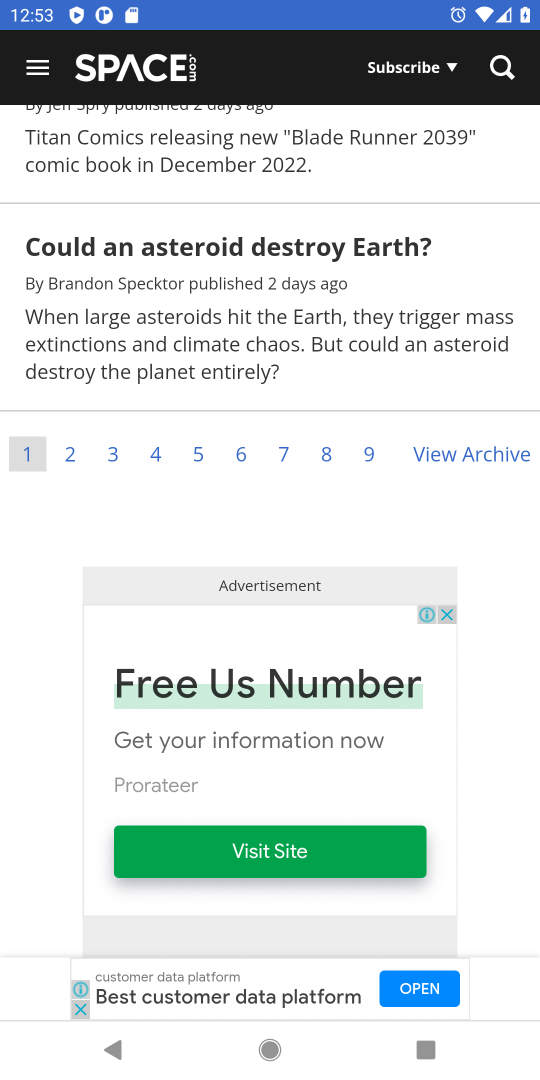
Step 57: click (65, 455)
Your task to perform on an android device: What's the latest news in astronomy? Image 58: 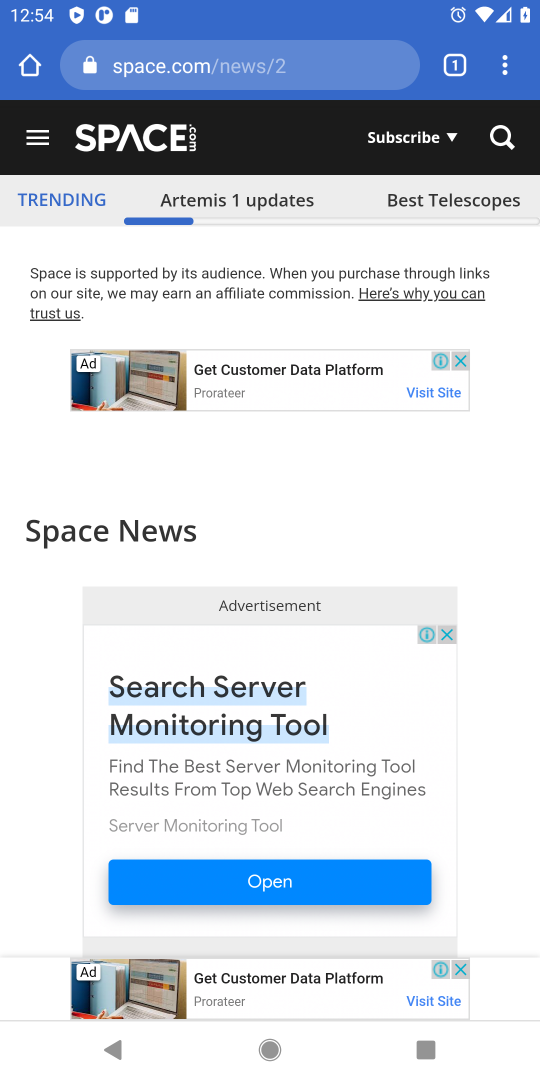
Step 58: task complete